Your task to perform on an android device: Search for macbook on costco.com, select the first entry, add it to the cart, then select checkout. Image 0: 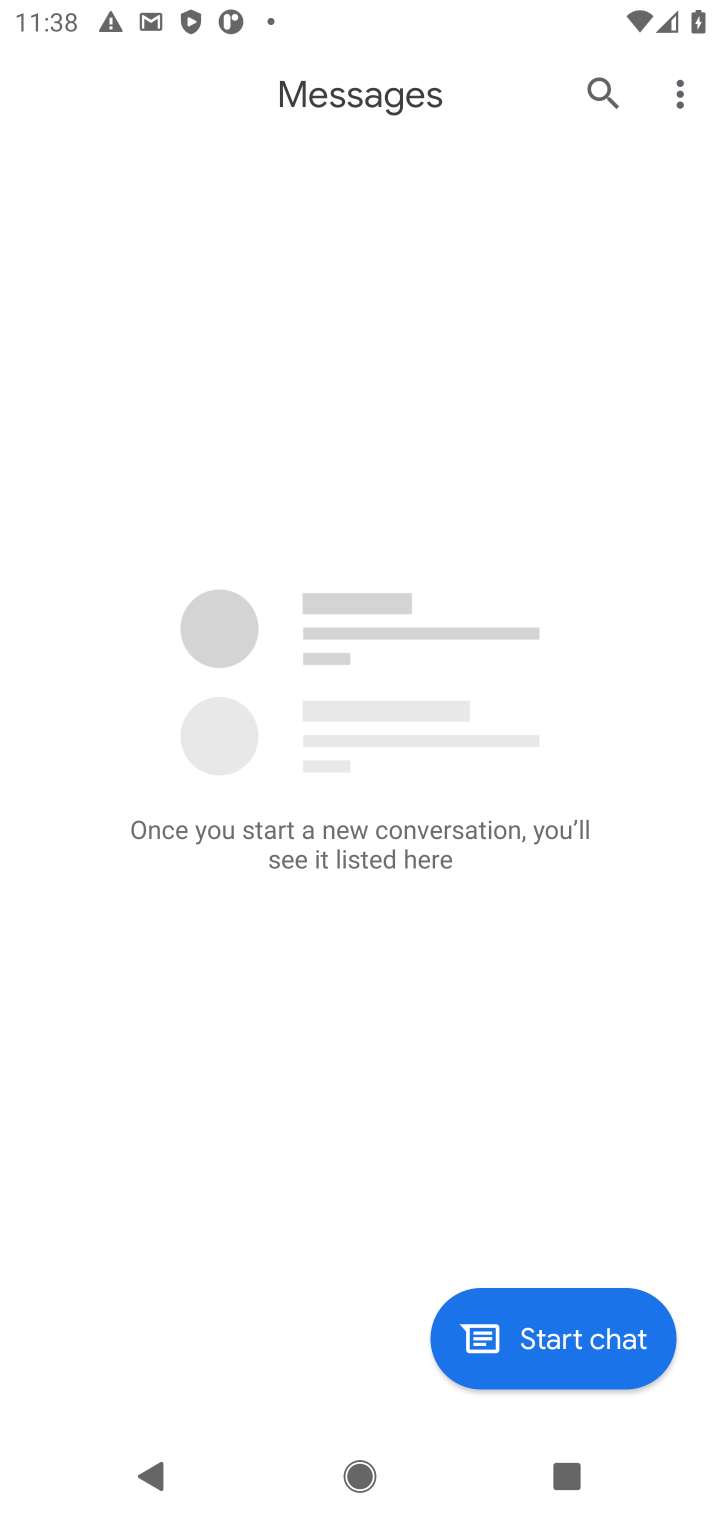
Step 0: press home button
Your task to perform on an android device: Search for macbook on costco.com, select the first entry, add it to the cart, then select checkout. Image 1: 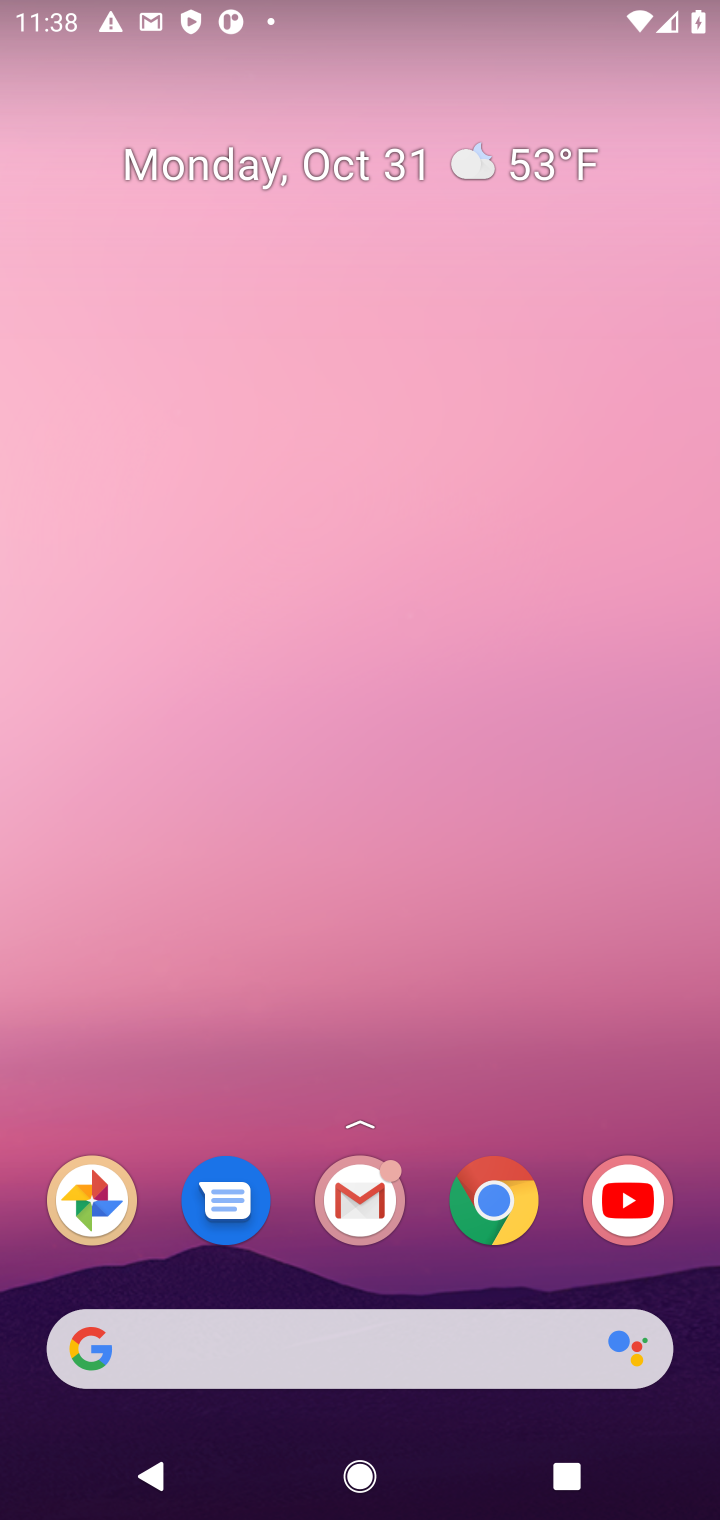
Step 1: click (494, 1216)
Your task to perform on an android device: Search for macbook on costco.com, select the first entry, add it to the cart, then select checkout. Image 2: 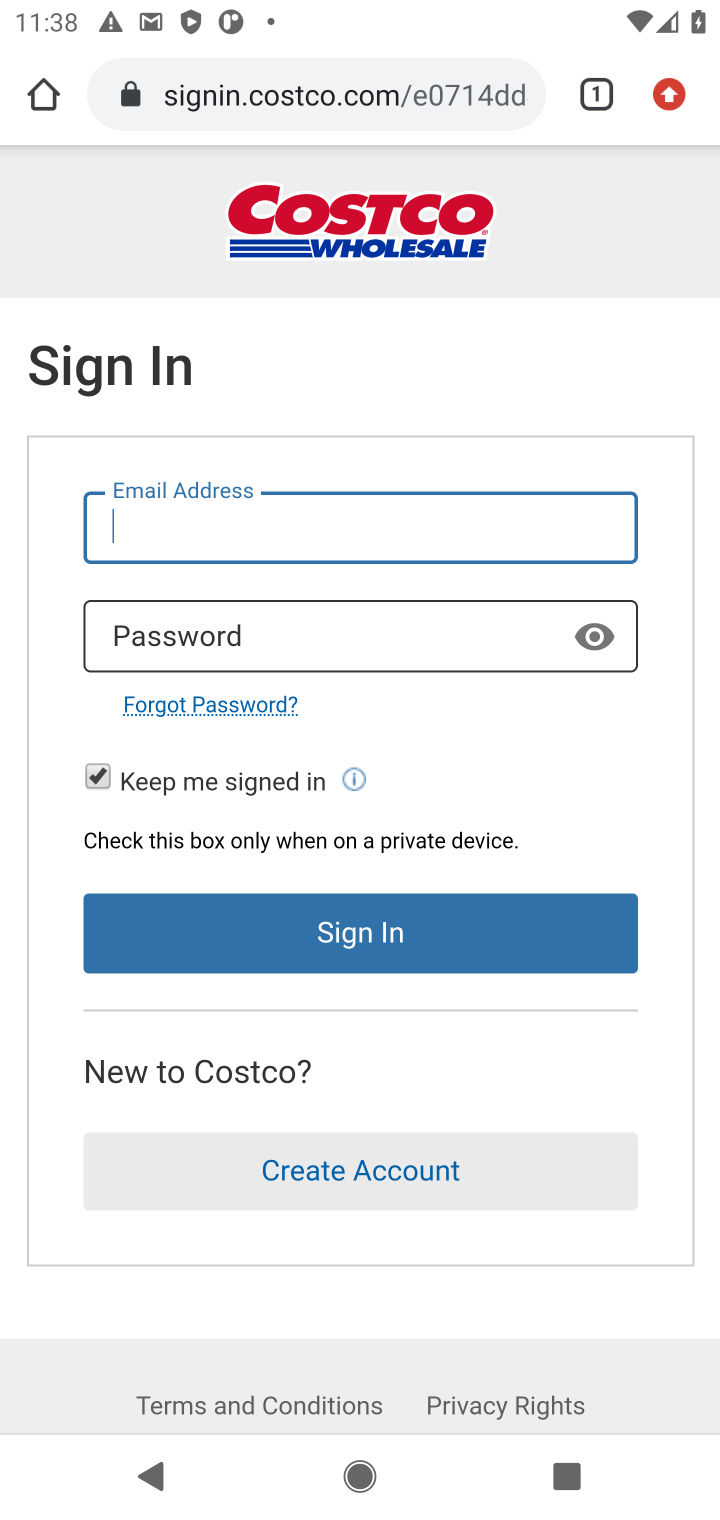
Step 2: click (345, 91)
Your task to perform on an android device: Search for macbook on costco.com, select the first entry, add it to the cart, then select checkout. Image 3: 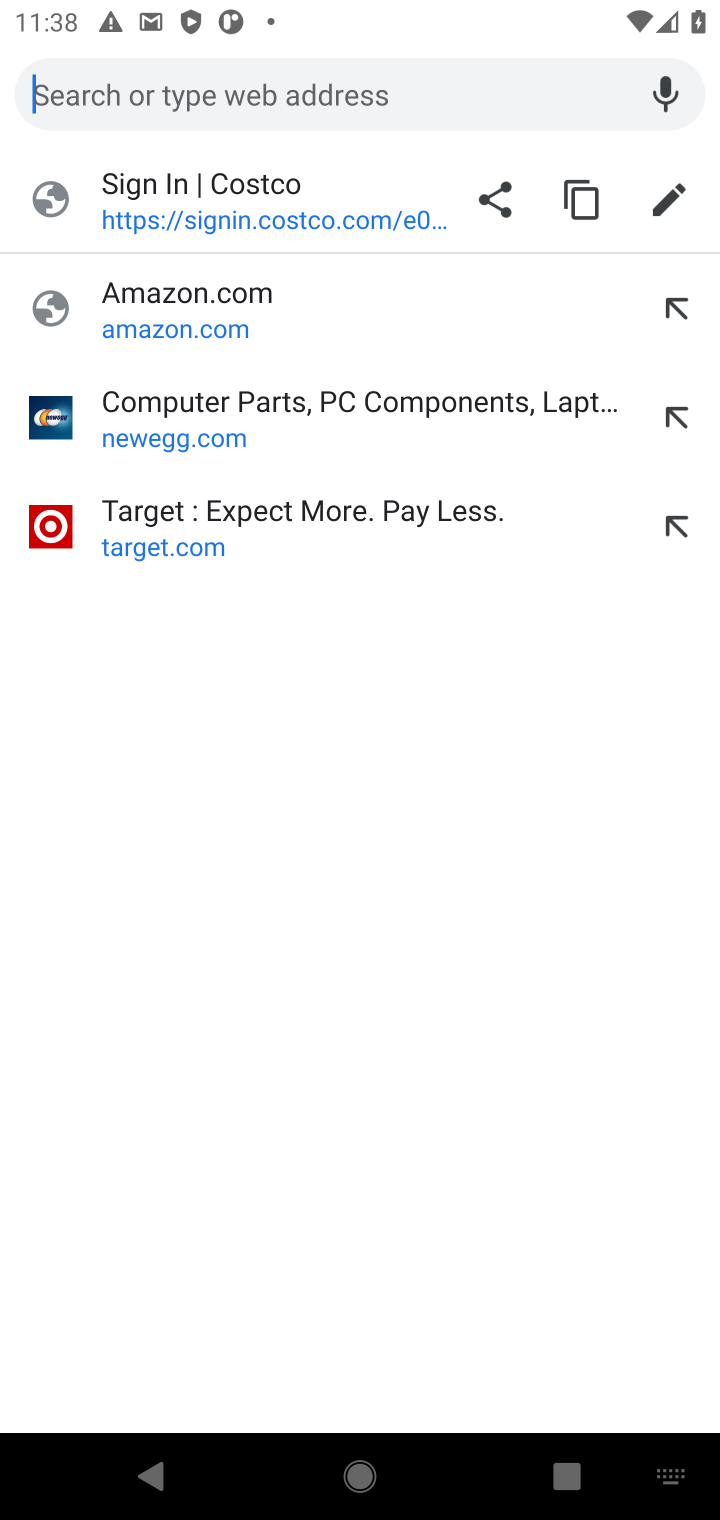
Step 3: type "costco.com"
Your task to perform on an android device: Search for macbook on costco.com, select the first entry, add it to the cart, then select checkout. Image 4: 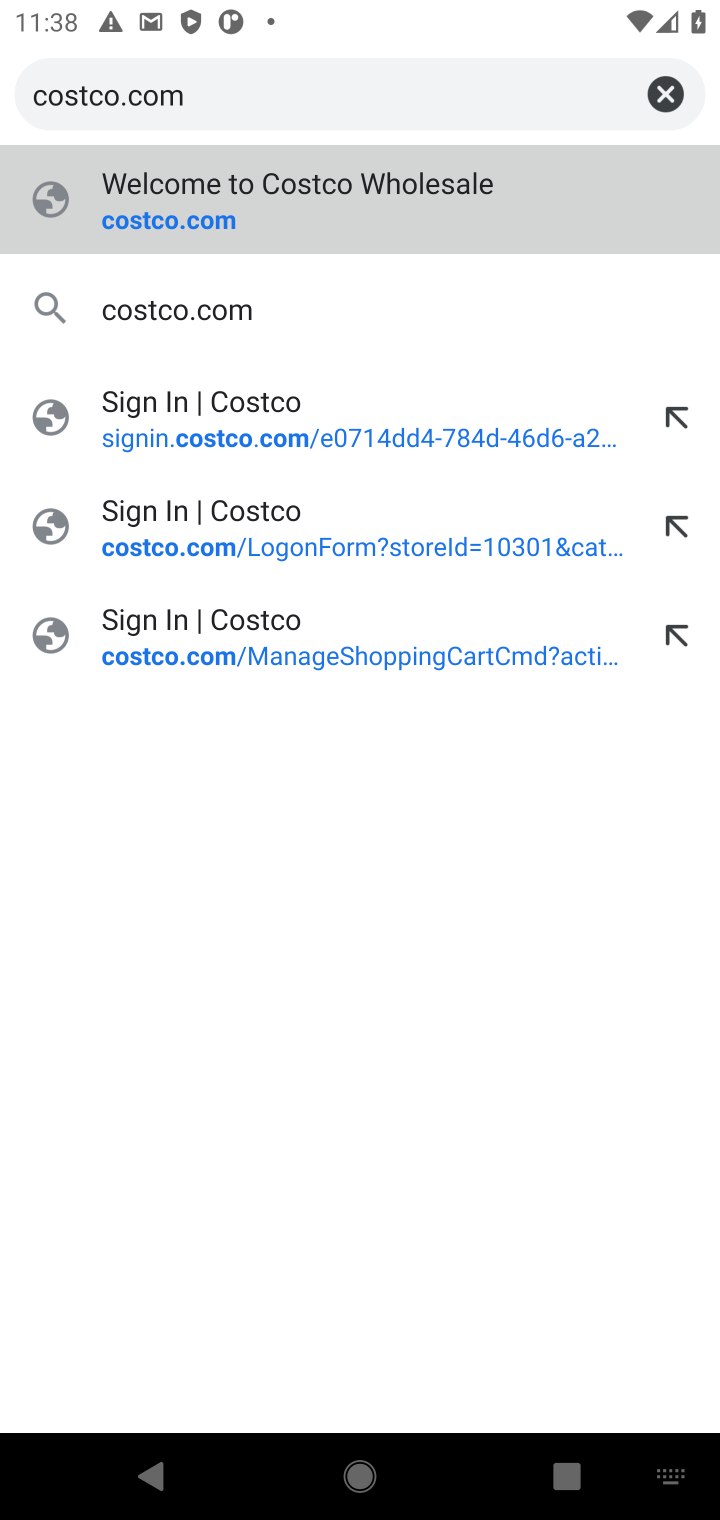
Step 4: type ""
Your task to perform on an android device: Search for macbook on costco.com, select the first entry, add it to the cart, then select checkout. Image 5: 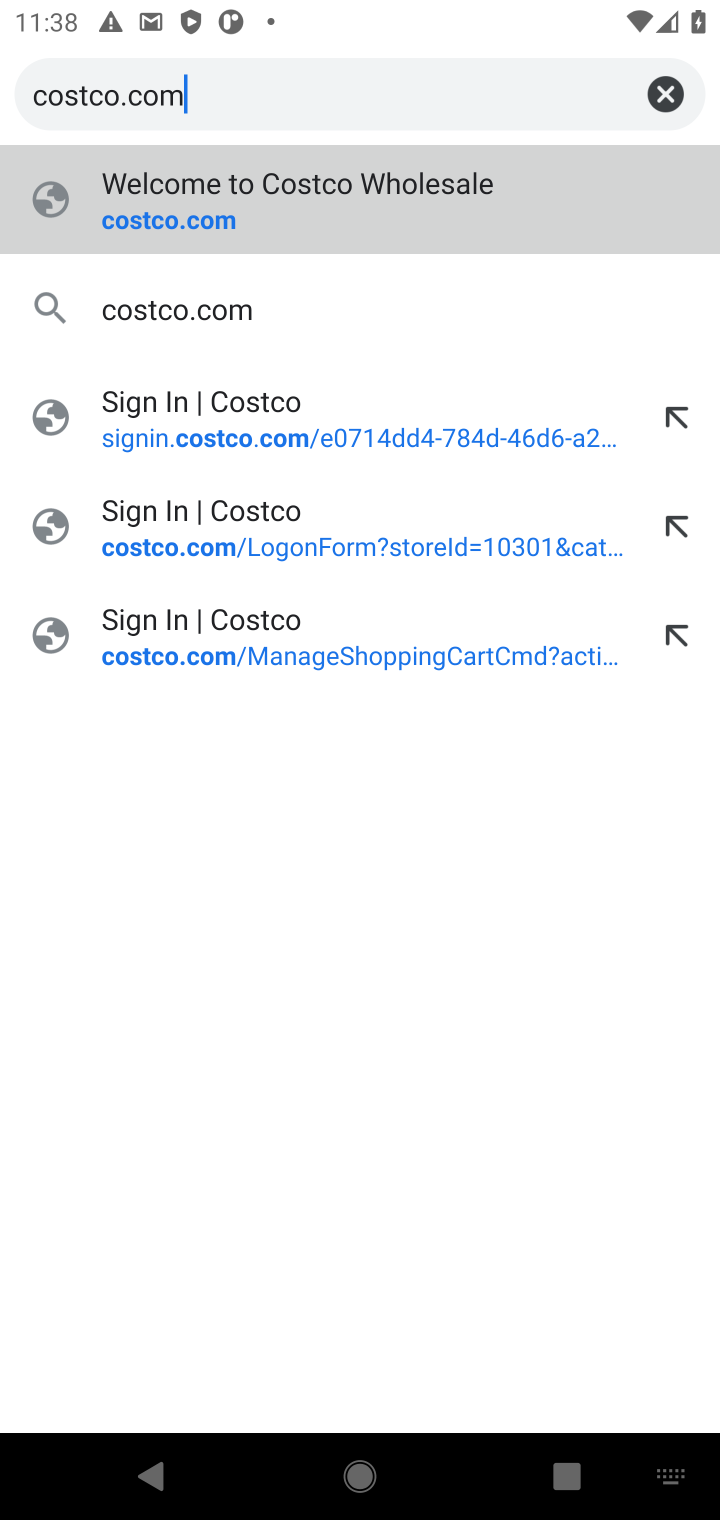
Step 5: click (414, 184)
Your task to perform on an android device: Search for macbook on costco.com, select the first entry, add it to the cart, then select checkout. Image 6: 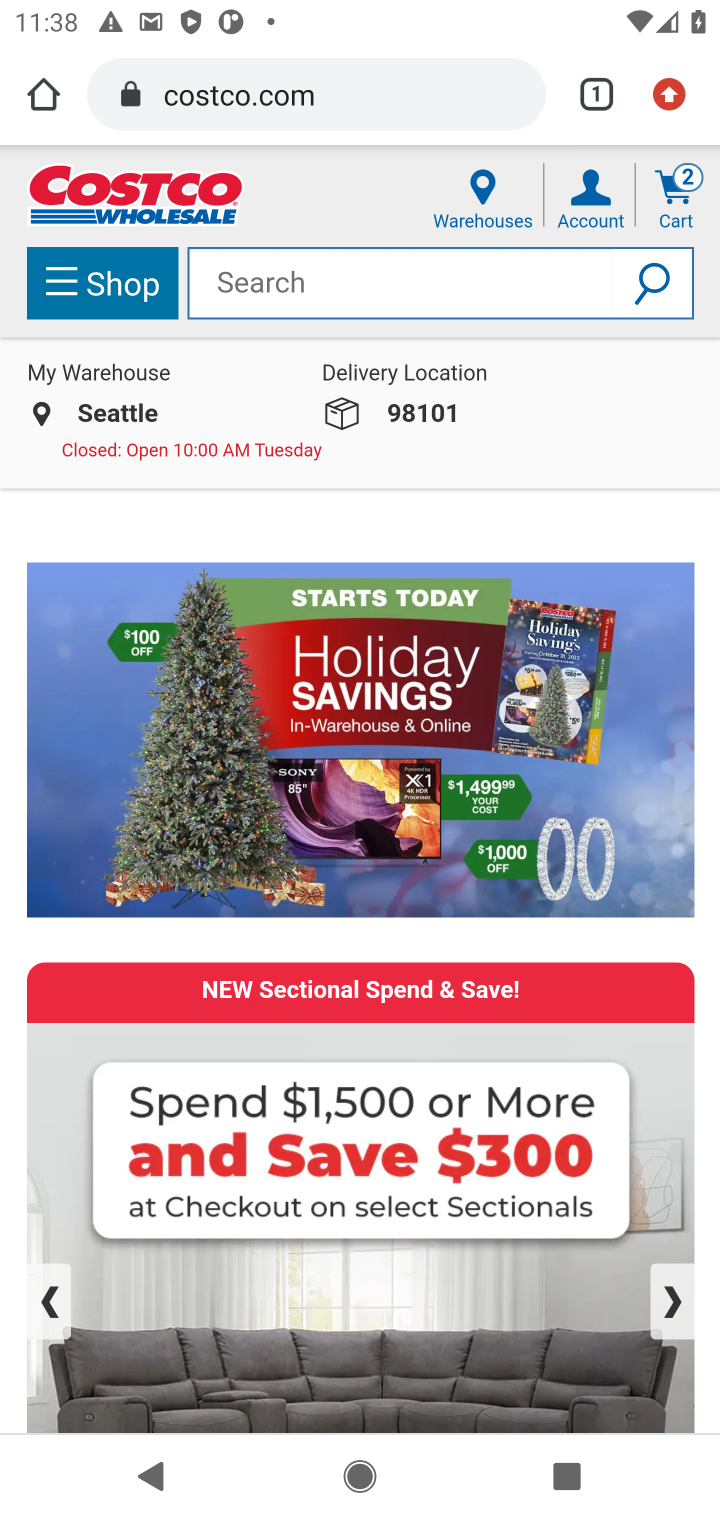
Step 6: click (381, 305)
Your task to perform on an android device: Search for macbook on costco.com, select the first entry, add it to the cart, then select checkout. Image 7: 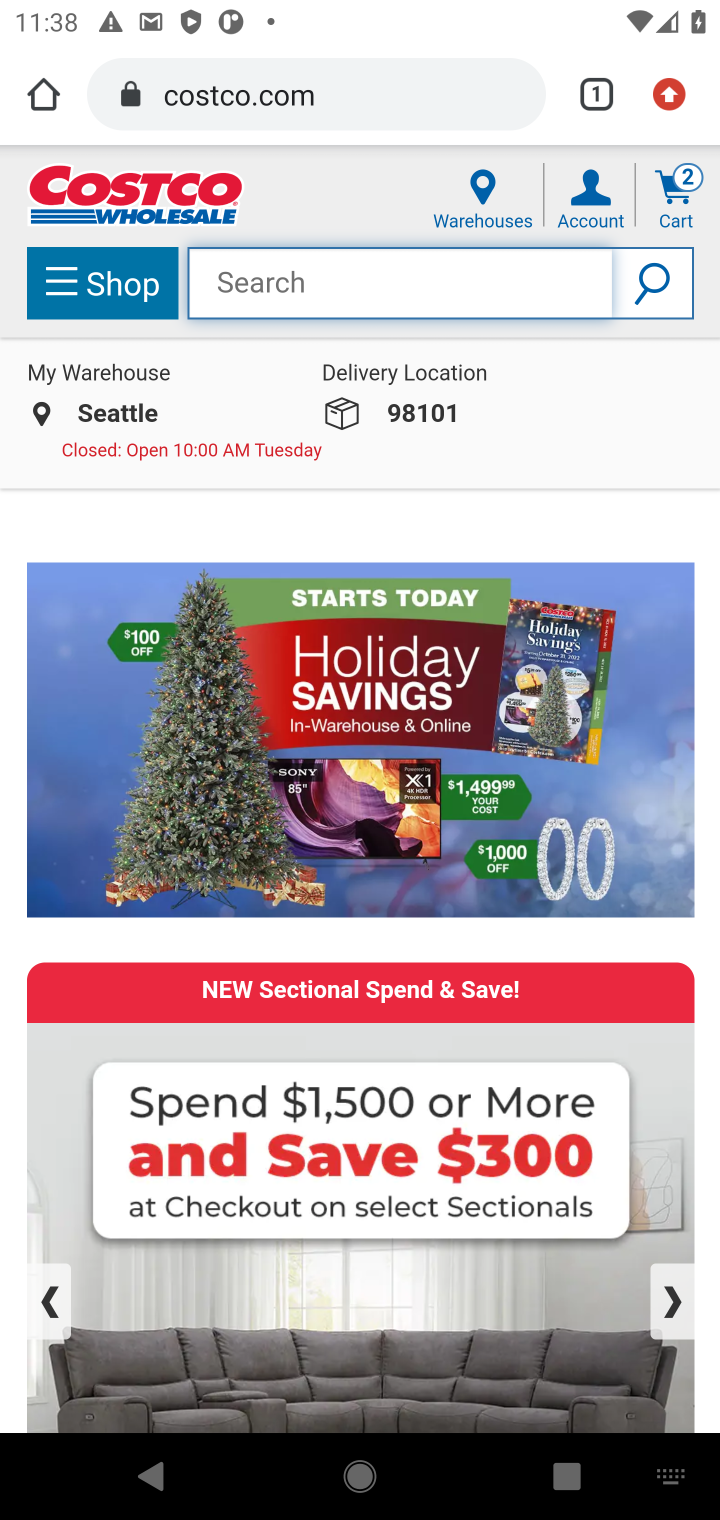
Step 7: type "macbook"
Your task to perform on an android device: Search for macbook on costco.com, select the first entry, add it to the cart, then select checkout. Image 8: 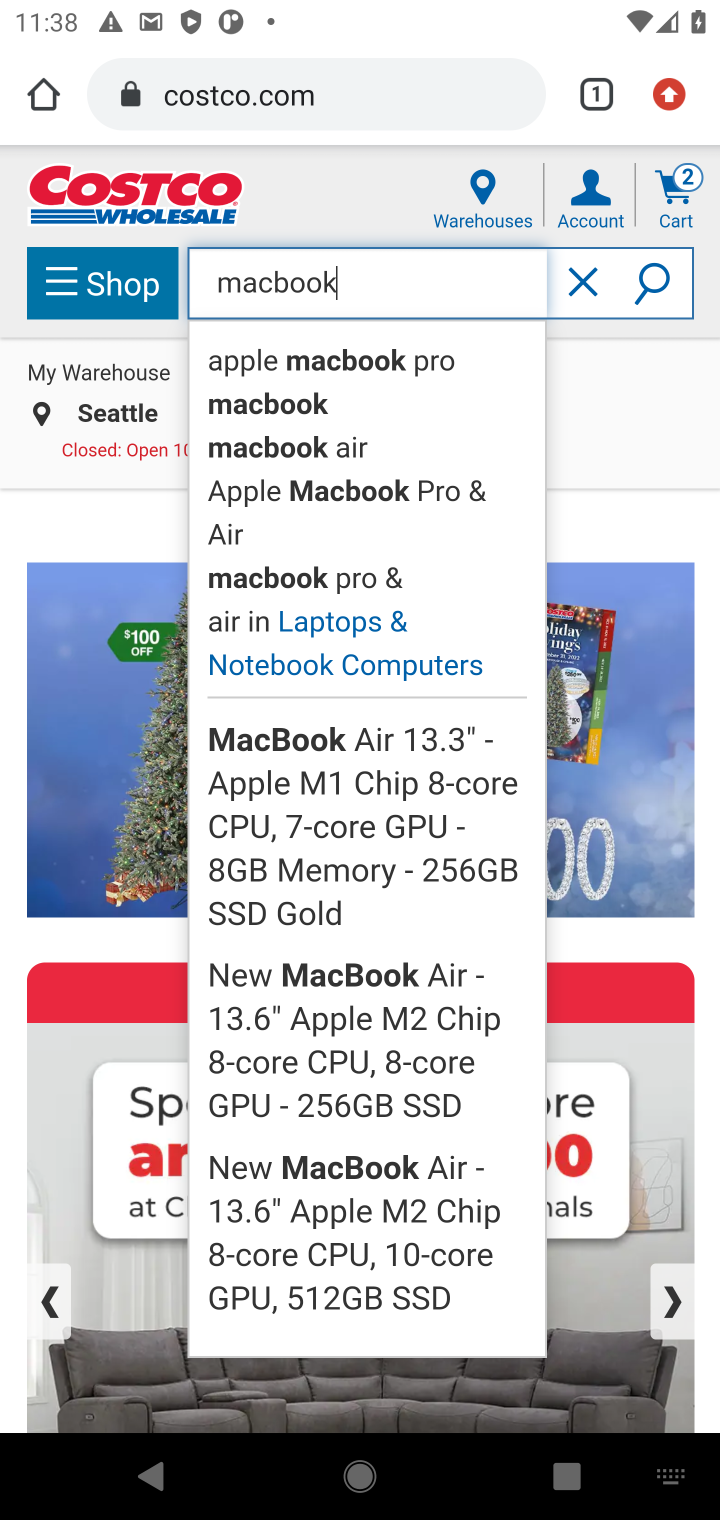
Step 8: press enter
Your task to perform on an android device: Search for macbook on costco.com, select the first entry, add it to the cart, then select checkout. Image 9: 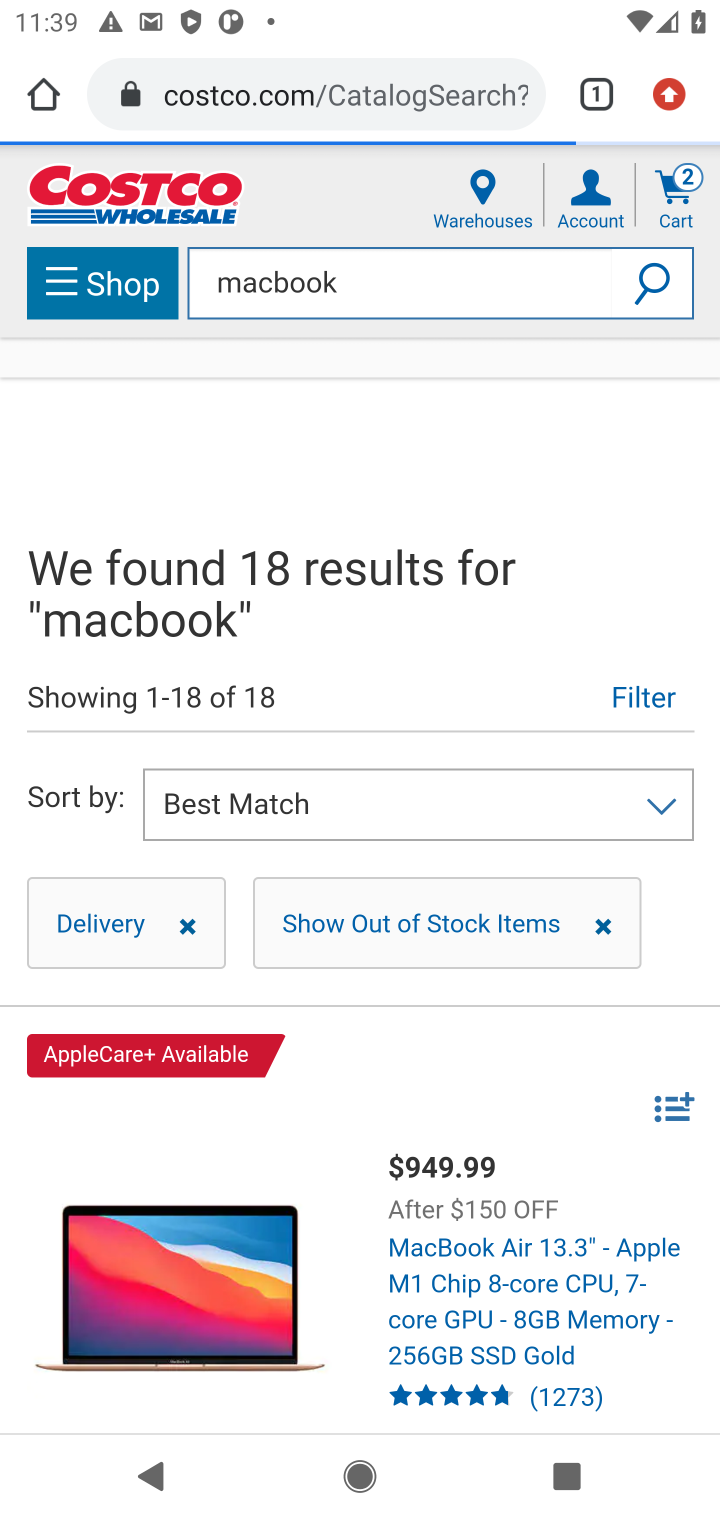
Step 9: click (544, 1257)
Your task to perform on an android device: Search for macbook on costco.com, select the first entry, add it to the cart, then select checkout. Image 10: 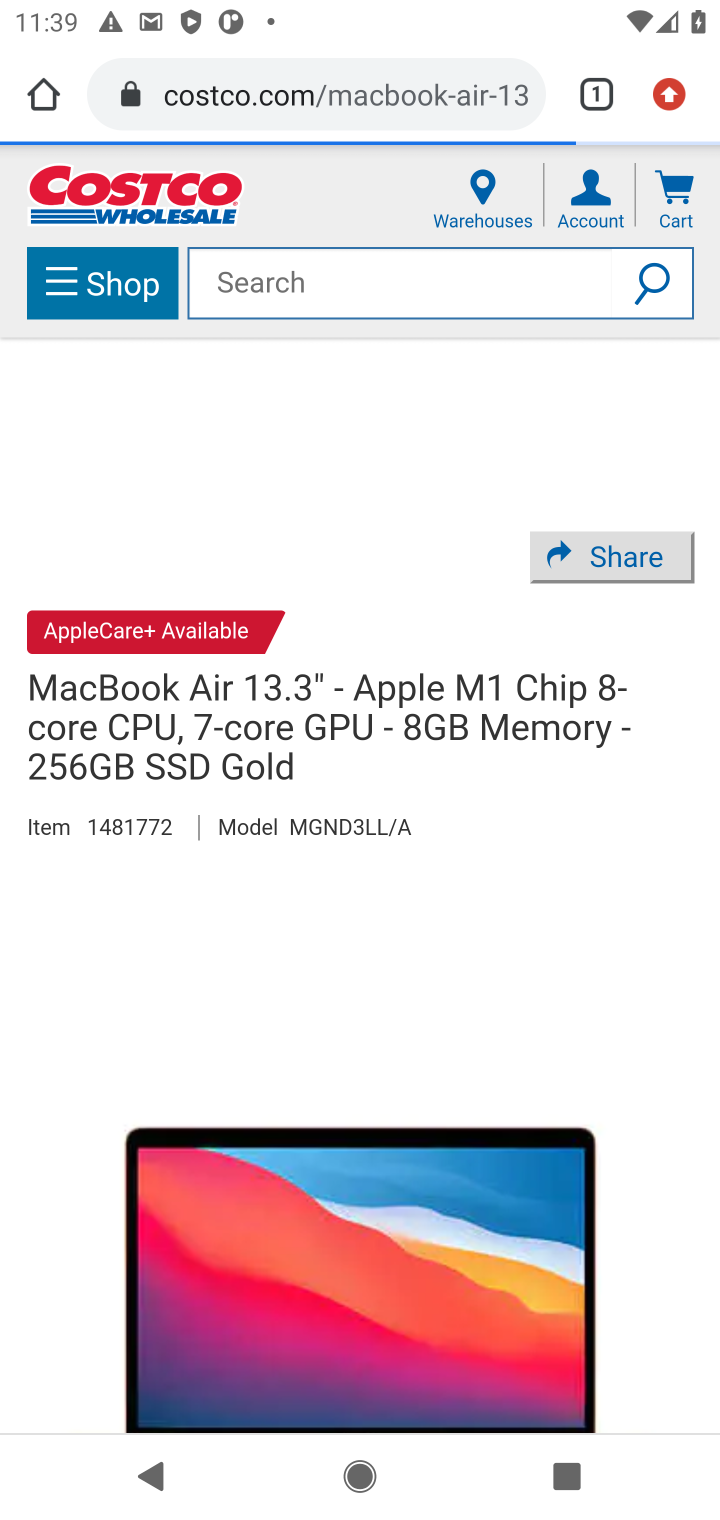
Step 10: drag from (548, 1282) to (549, 447)
Your task to perform on an android device: Search for macbook on costco.com, select the first entry, add it to the cart, then select checkout. Image 11: 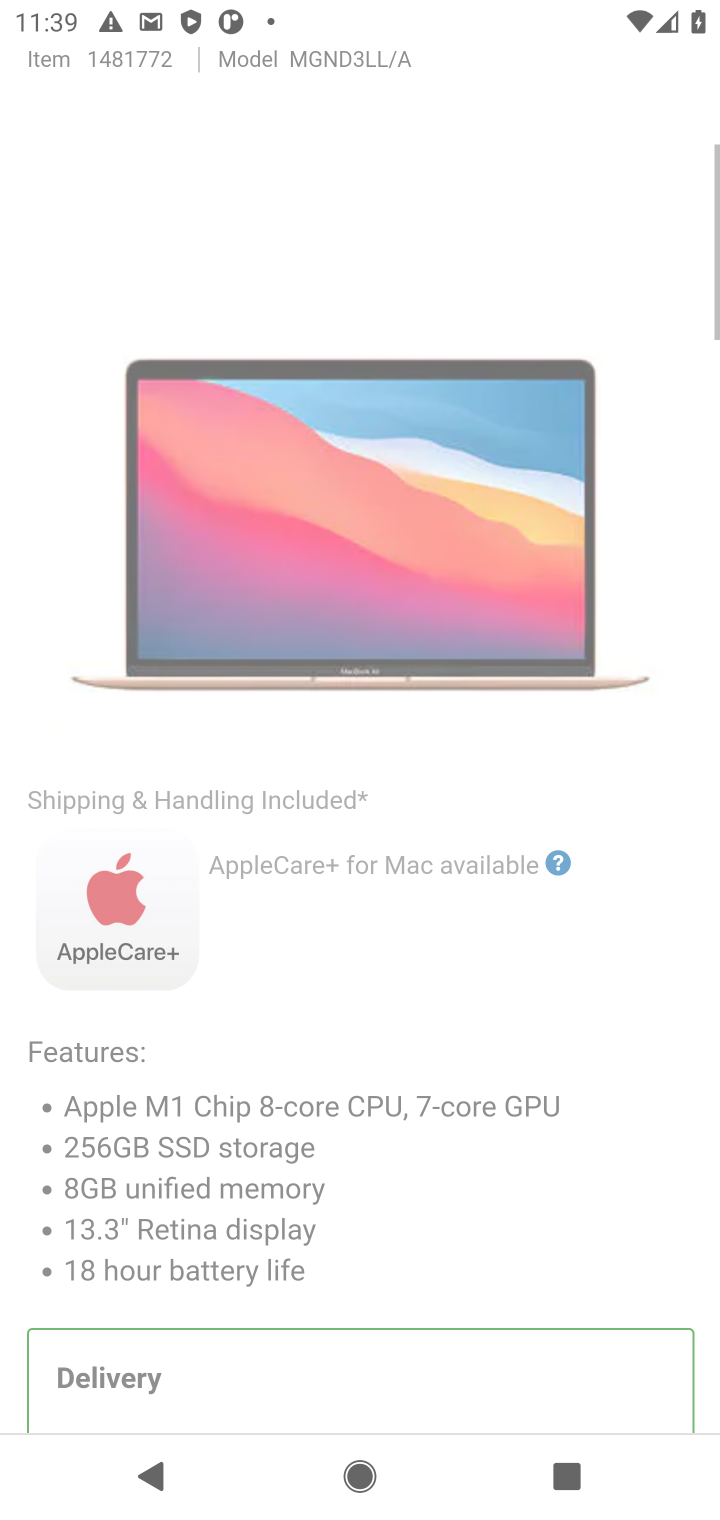
Step 11: drag from (508, 966) to (515, 476)
Your task to perform on an android device: Search for macbook on costco.com, select the first entry, add it to the cart, then select checkout. Image 12: 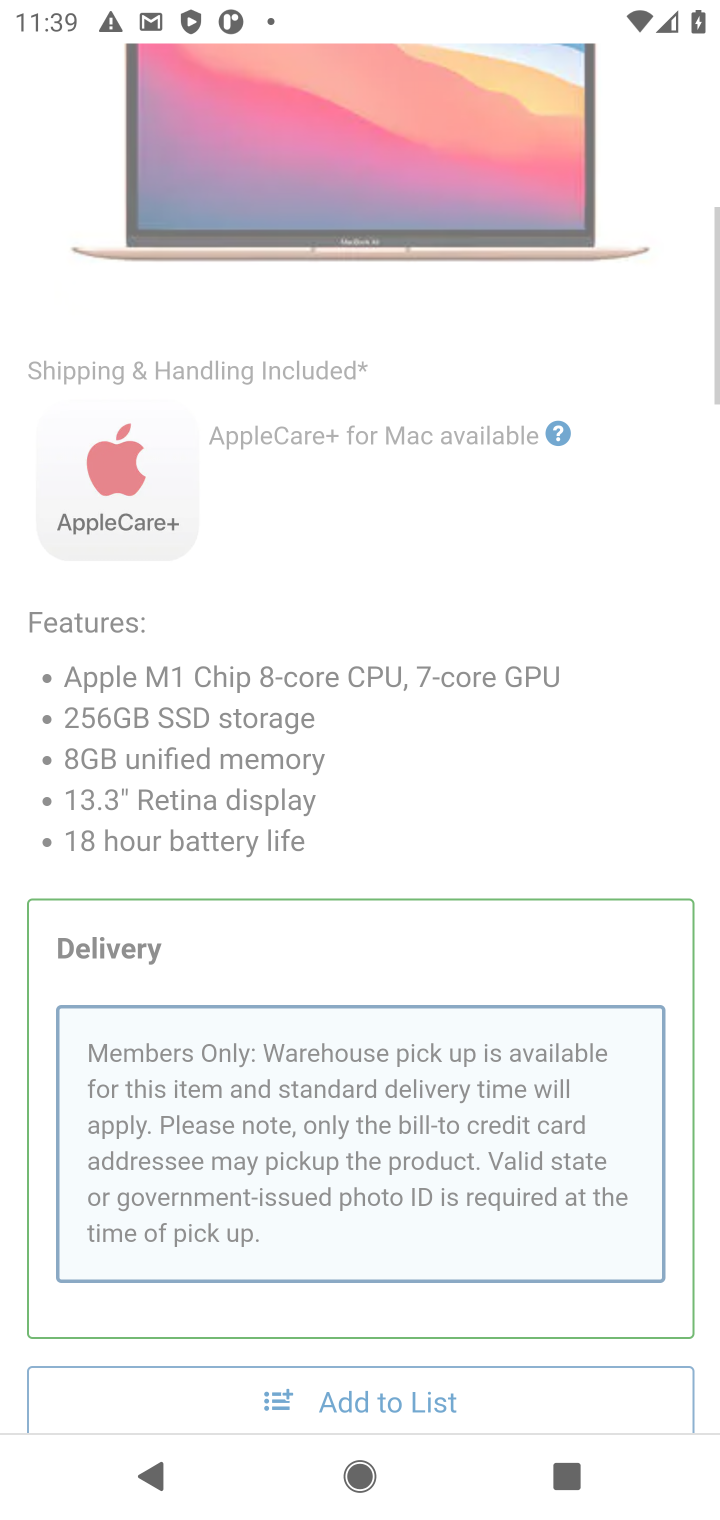
Step 12: drag from (485, 985) to (554, 500)
Your task to perform on an android device: Search for macbook on costco.com, select the first entry, add it to the cart, then select checkout. Image 13: 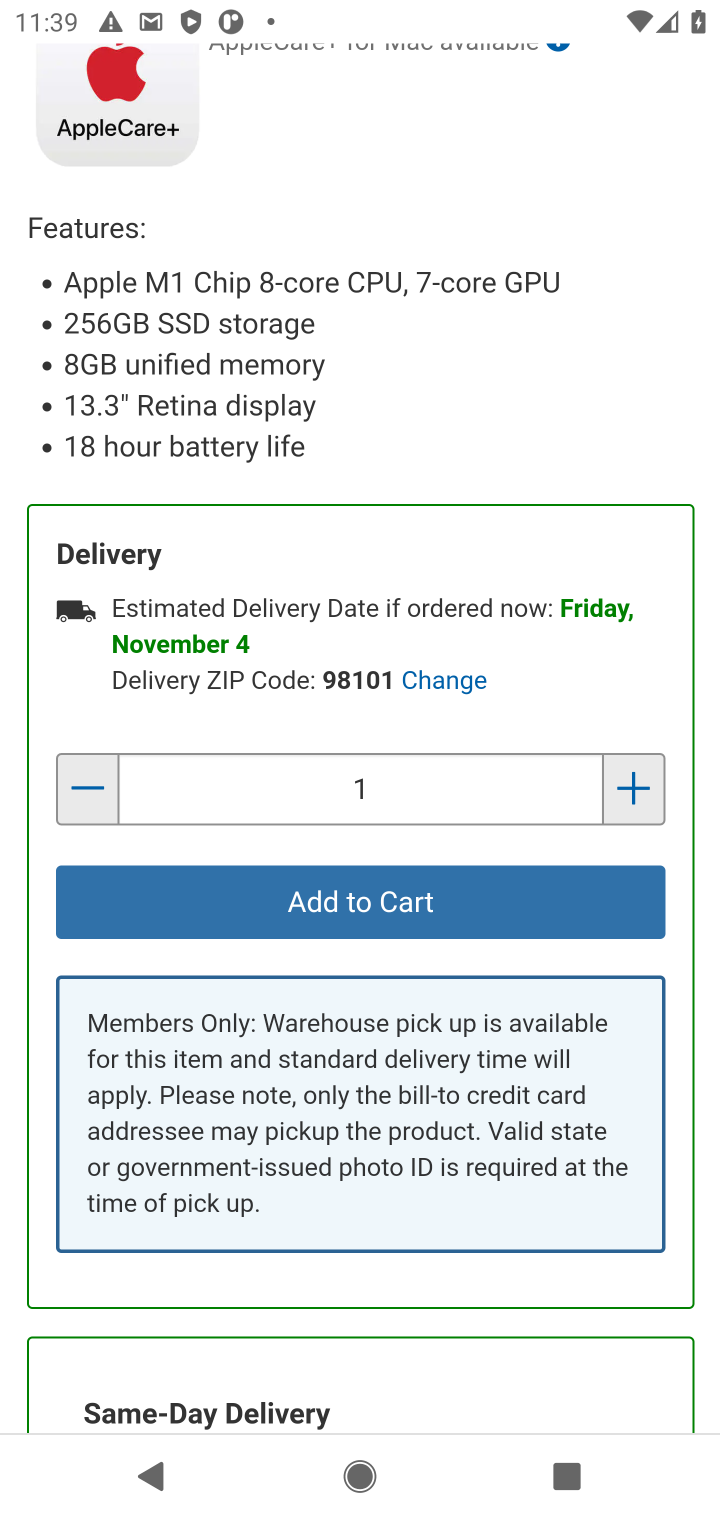
Step 13: click (501, 914)
Your task to perform on an android device: Search for macbook on costco.com, select the first entry, add it to the cart, then select checkout. Image 14: 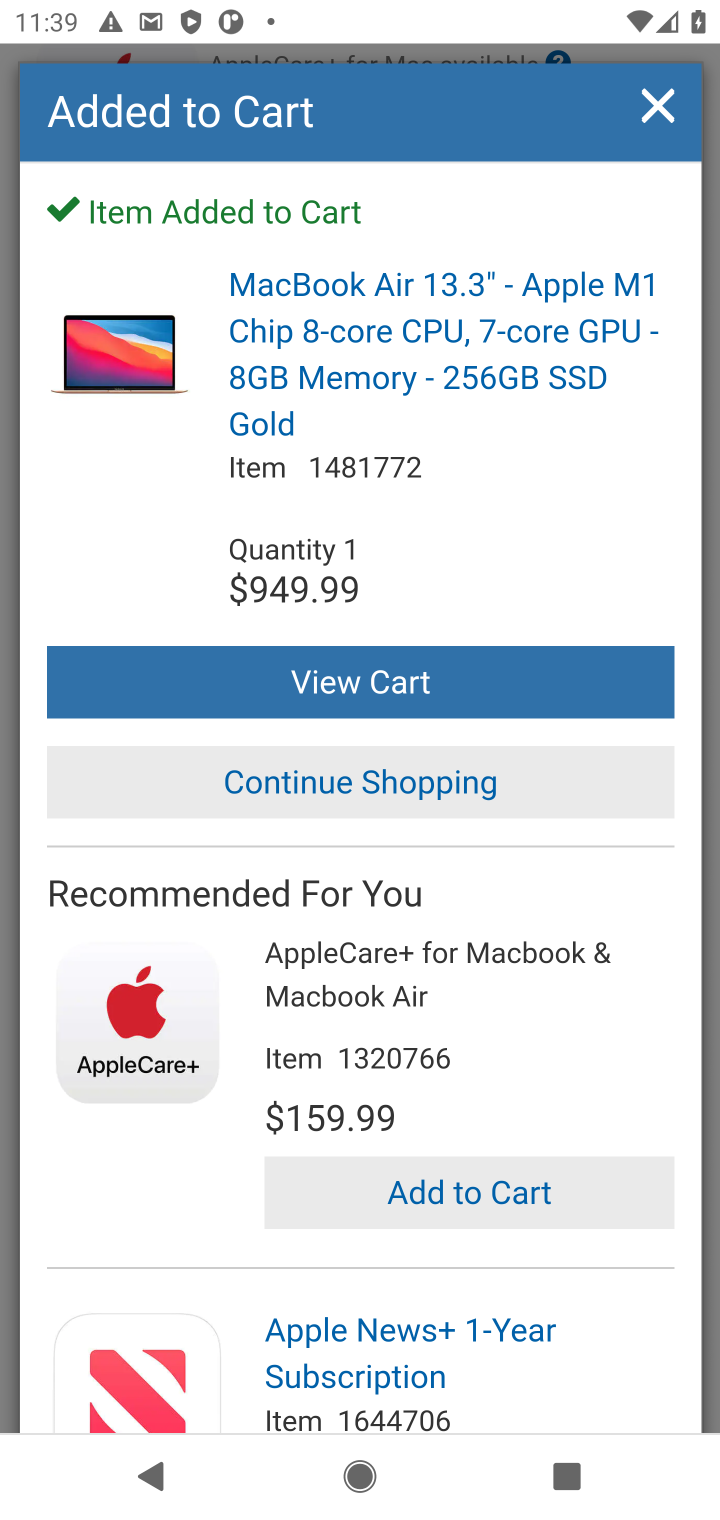
Step 14: click (518, 781)
Your task to perform on an android device: Search for macbook on costco.com, select the first entry, add it to the cart, then select checkout. Image 15: 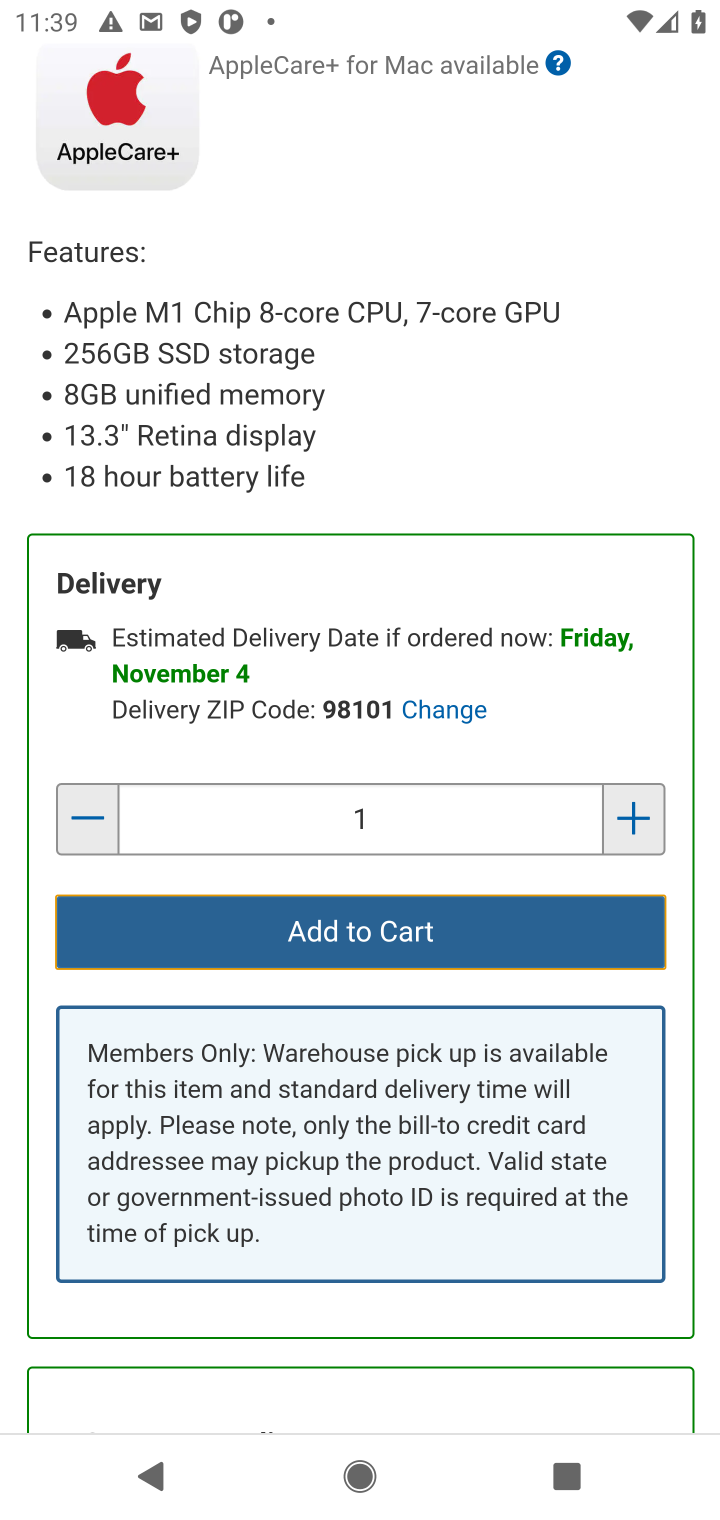
Step 15: click (501, 907)
Your task to perform on an android device: Search for macbook on costco.com, select the first entry, add it to the cart, then select checkout. Image 16: 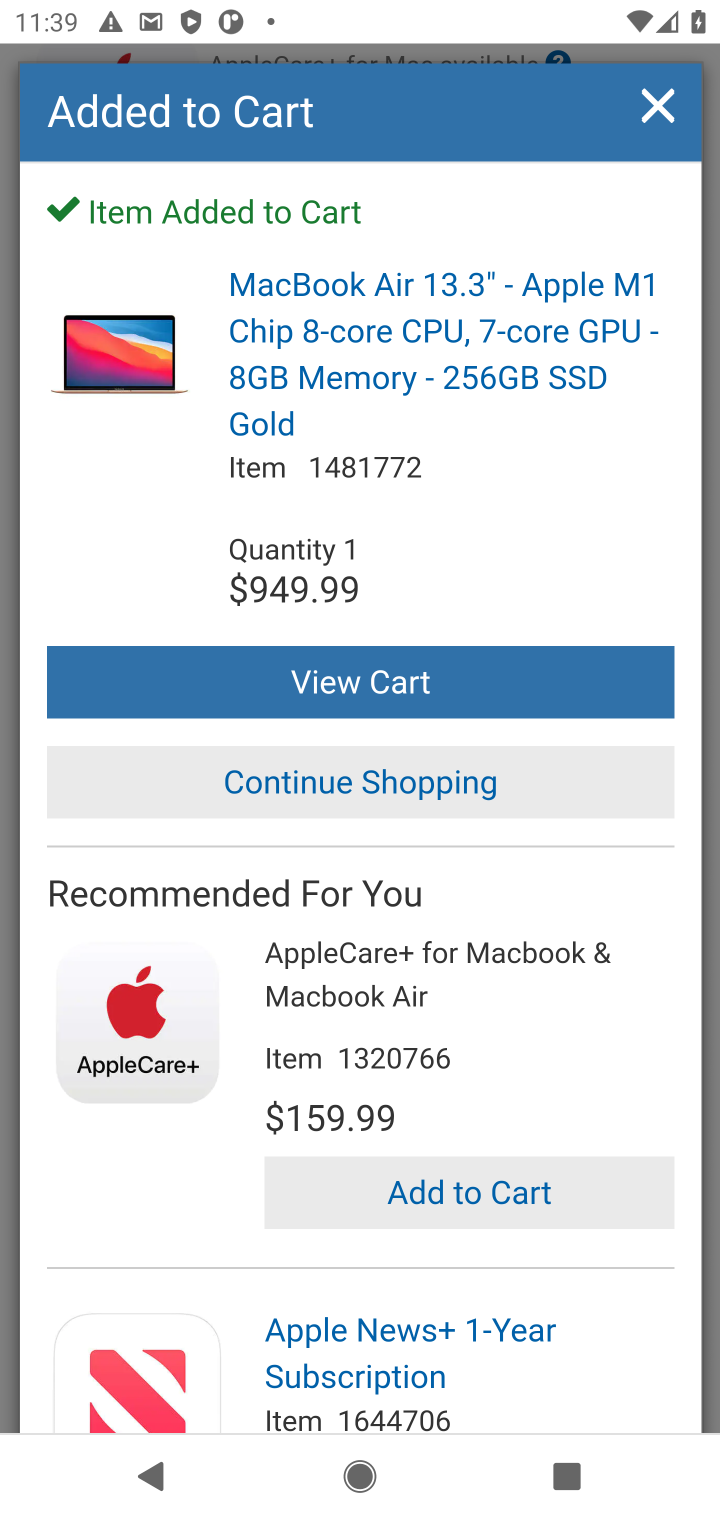
Step 16: click (432, 681)
Your task to perform on an android device: Search for macbook on costco.com, select the first entry, add it to the cart, then select checkout. Image 17: 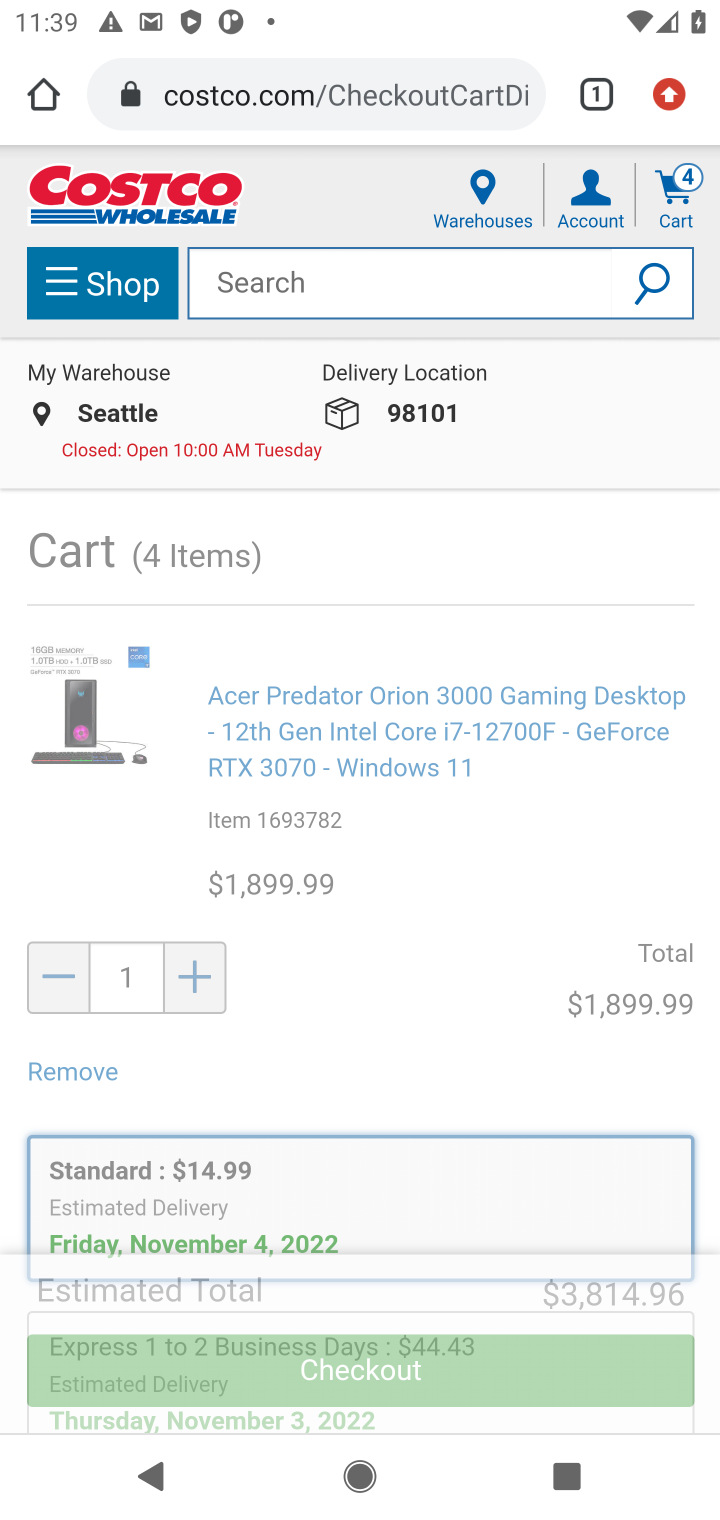
Step 17: click (432, 681)
Your task to perform on an android device: Search for macbook on costco.com, select the first entry, add it to the cart, then select checkout. Image 18: 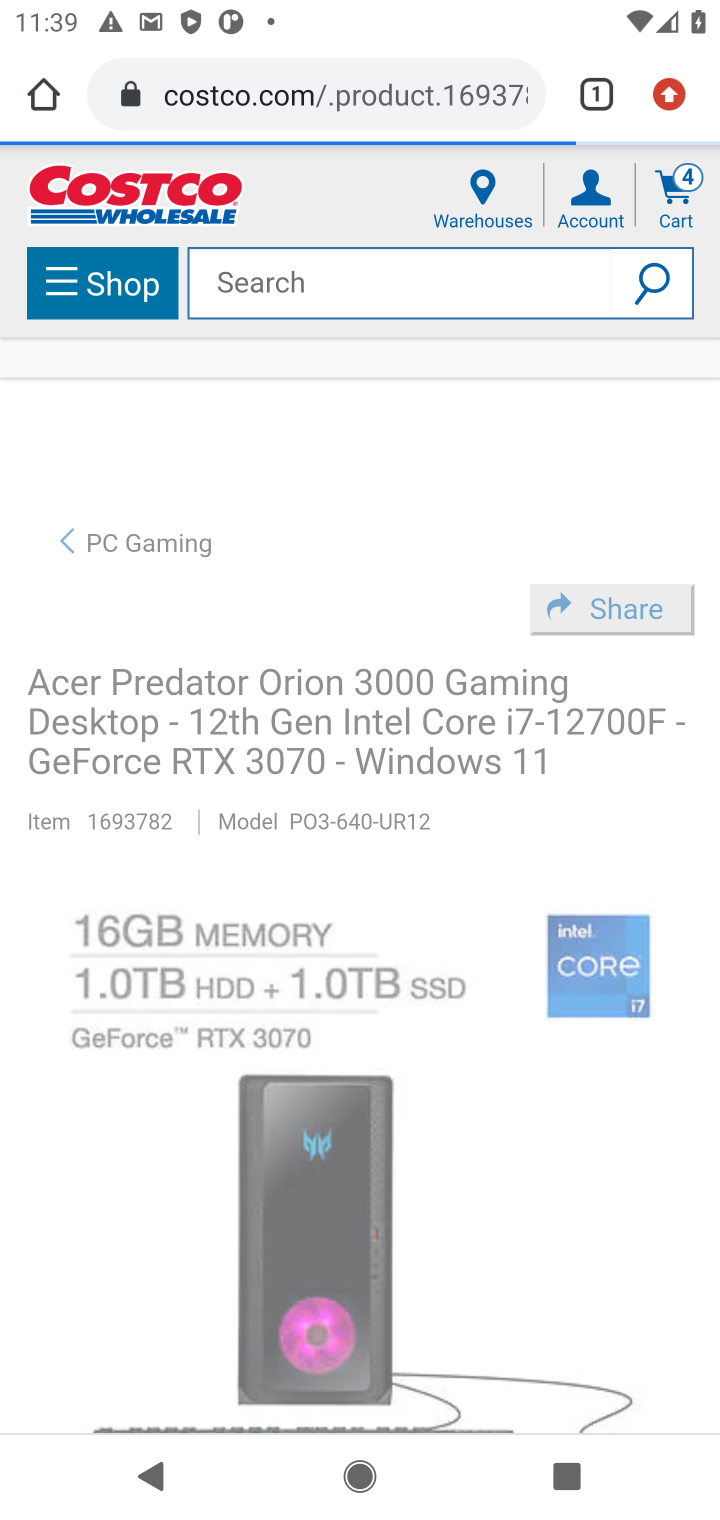
Step 18: drag from (421, 1093) to (425, 522)
Your task to perform on an android device: Search for macbook on costco.com, select the first entry, add it to the cart, then select checkout. Image 19: 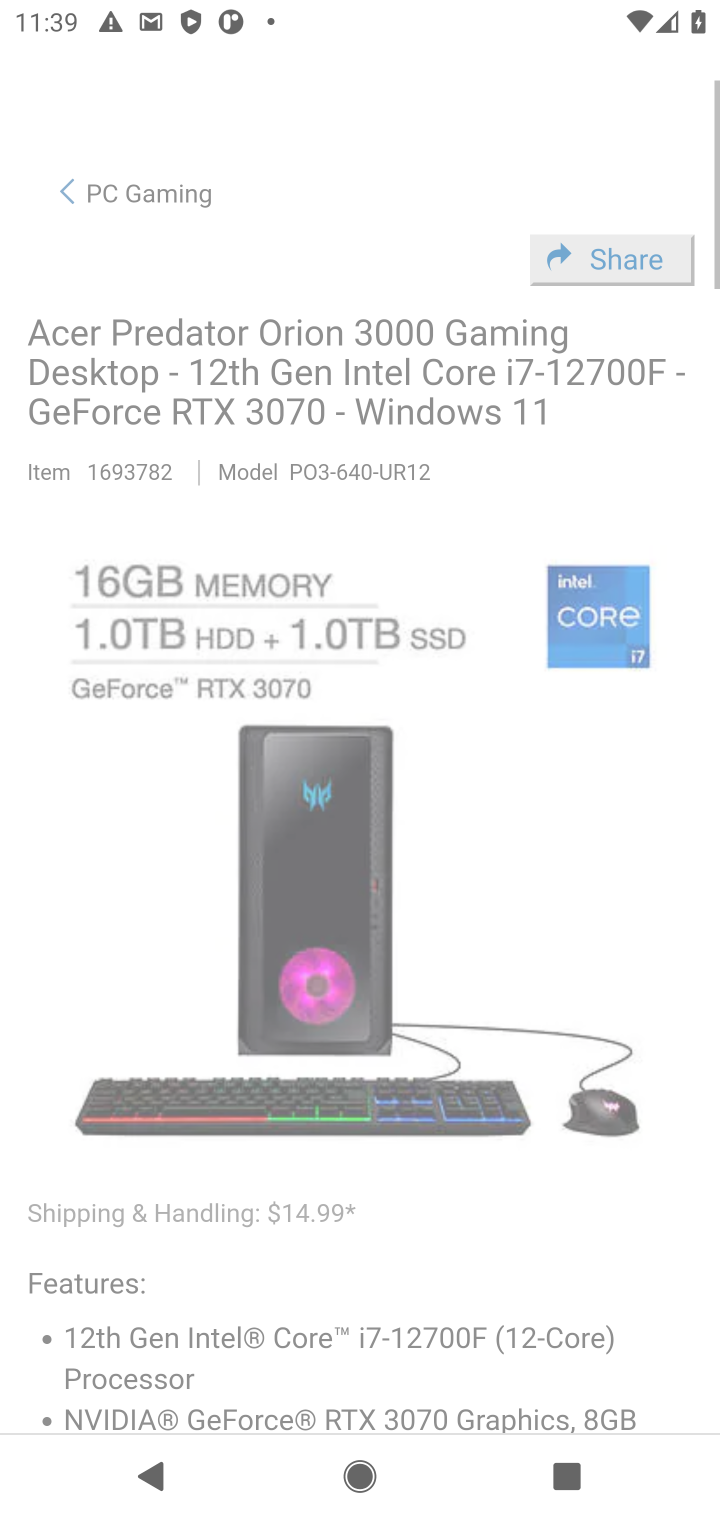
Step 19: drag from (401, 1150) to (417, 568)
Your task to perform on an android device: Search for macbook on costco.com, select the first entry, add it to the cart, then select checkout. Image 20: 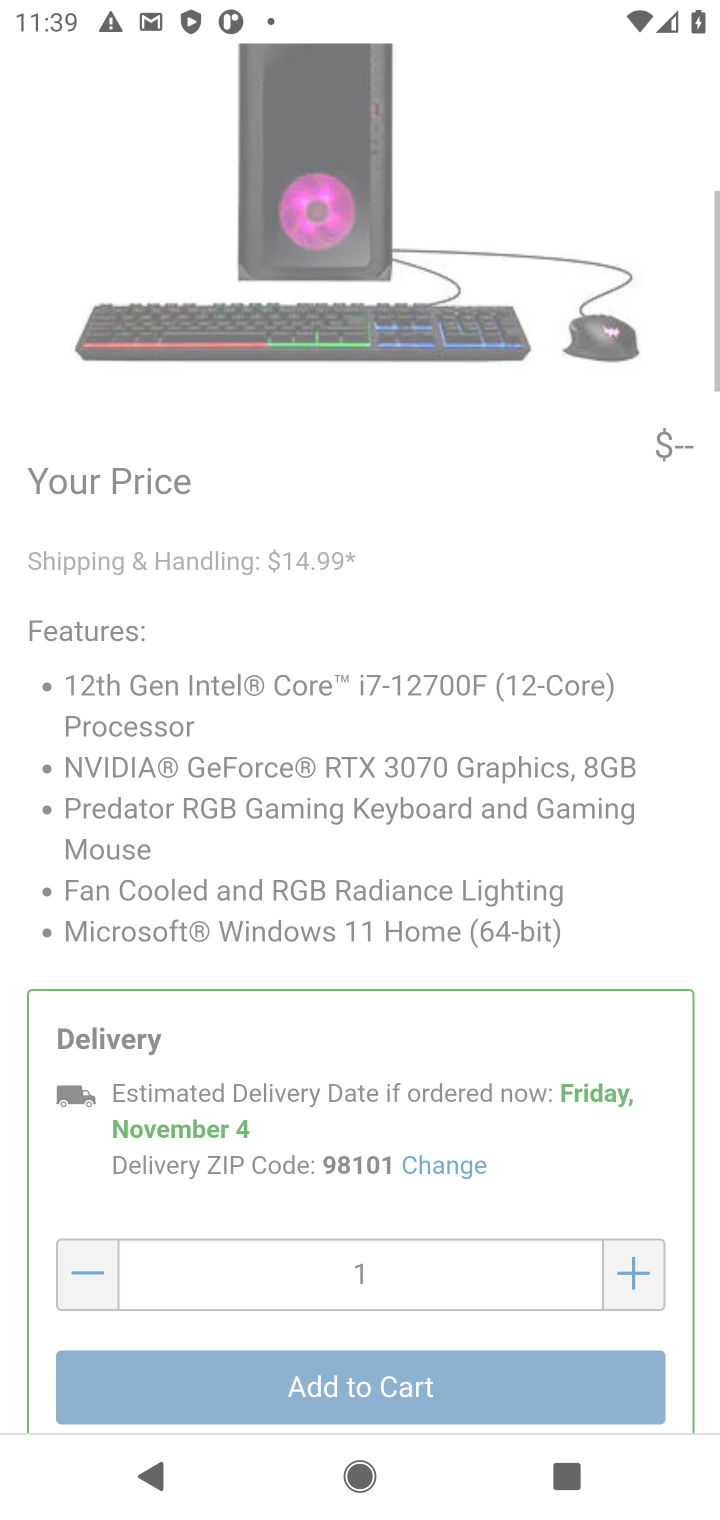
Step 20: click (468, 473)
Your task to perform on an android device: Search for macbook on costco.com, select the first entry, add it to the cart, then select checkout. Image 21: 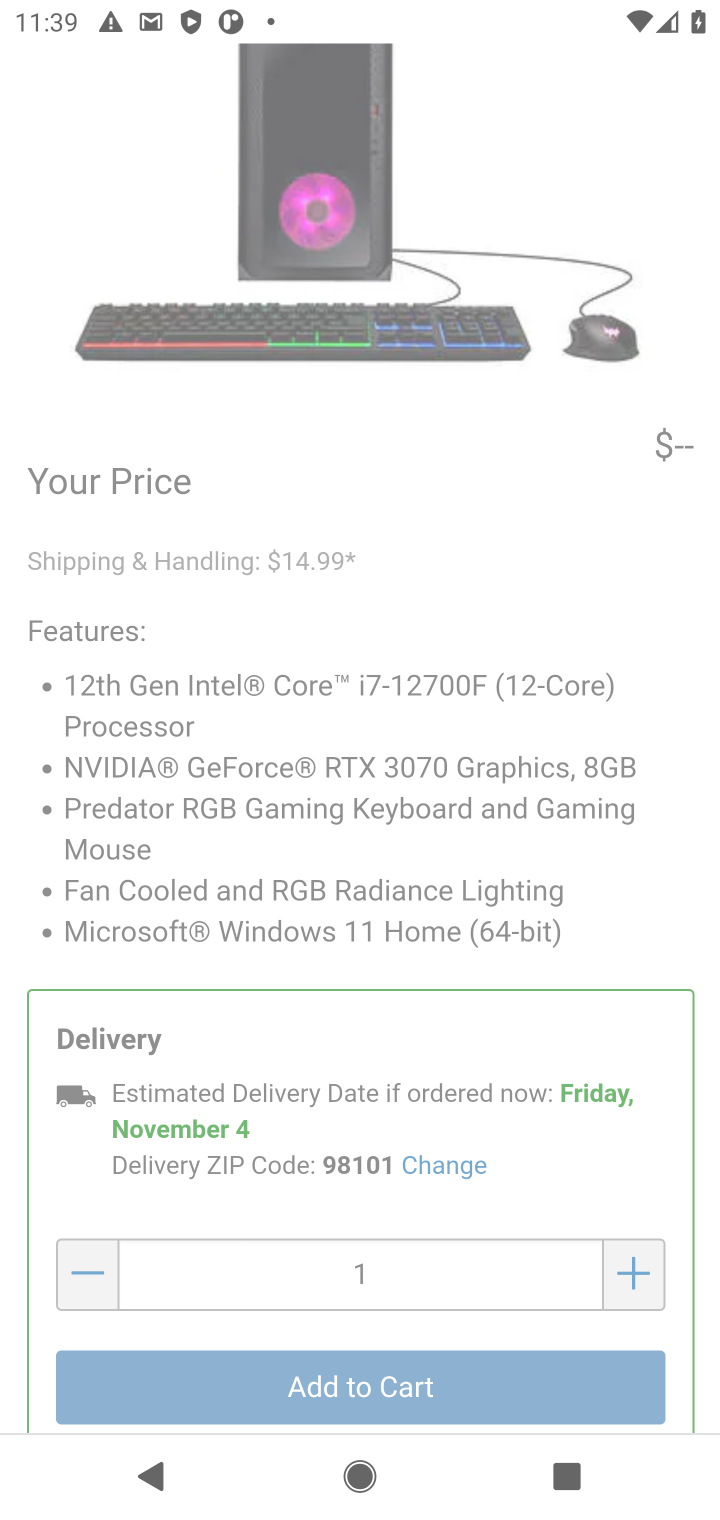
Step 21: drag from (481, 950) to (464, 379)
Your task to perform on an android device: Search for macbook on costco.com, select the first entry, add it to the cart, then select checkout. Image 22: 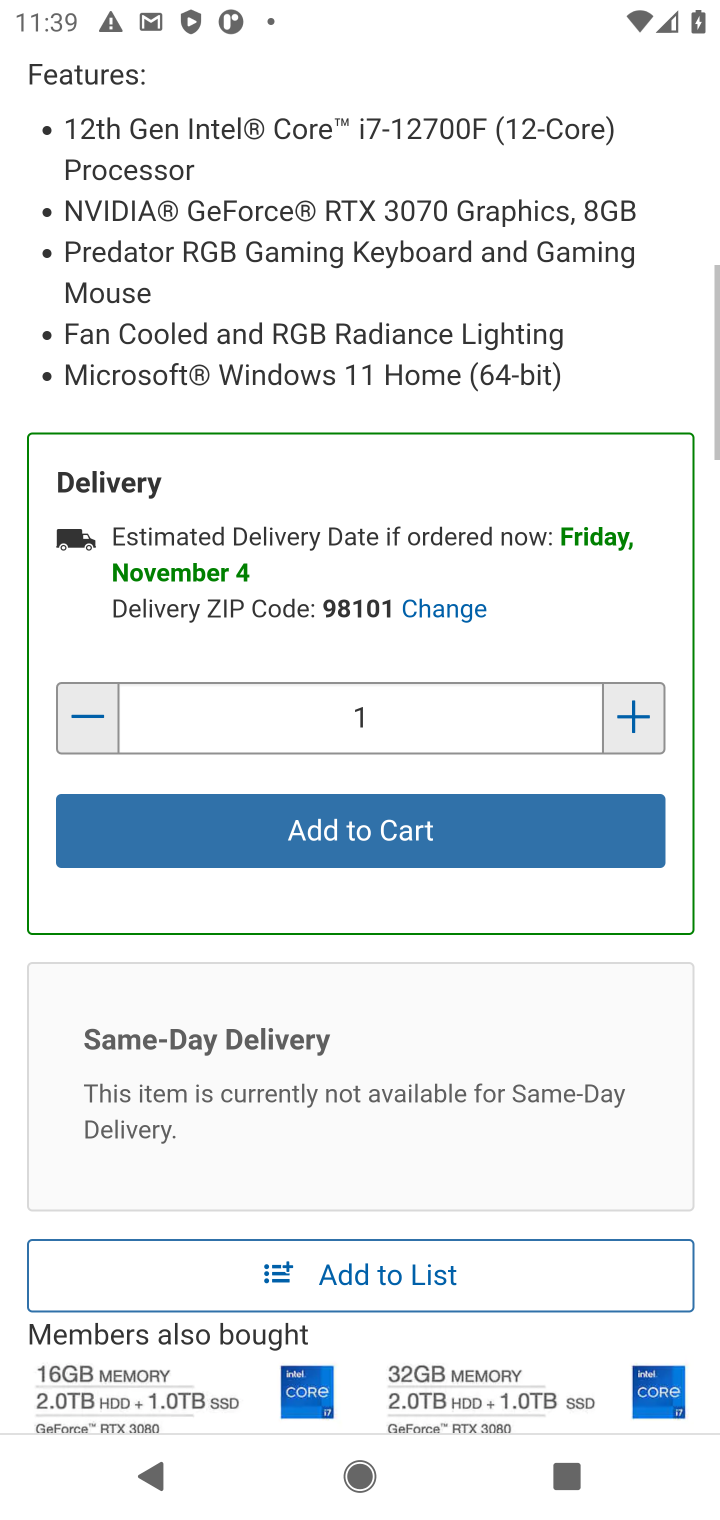
Step 22: click (546, 565)
Your task to perform on an android device: Search for macbook on costco.com, select the first entry, add it to the cart, then select checkout. Image 23: 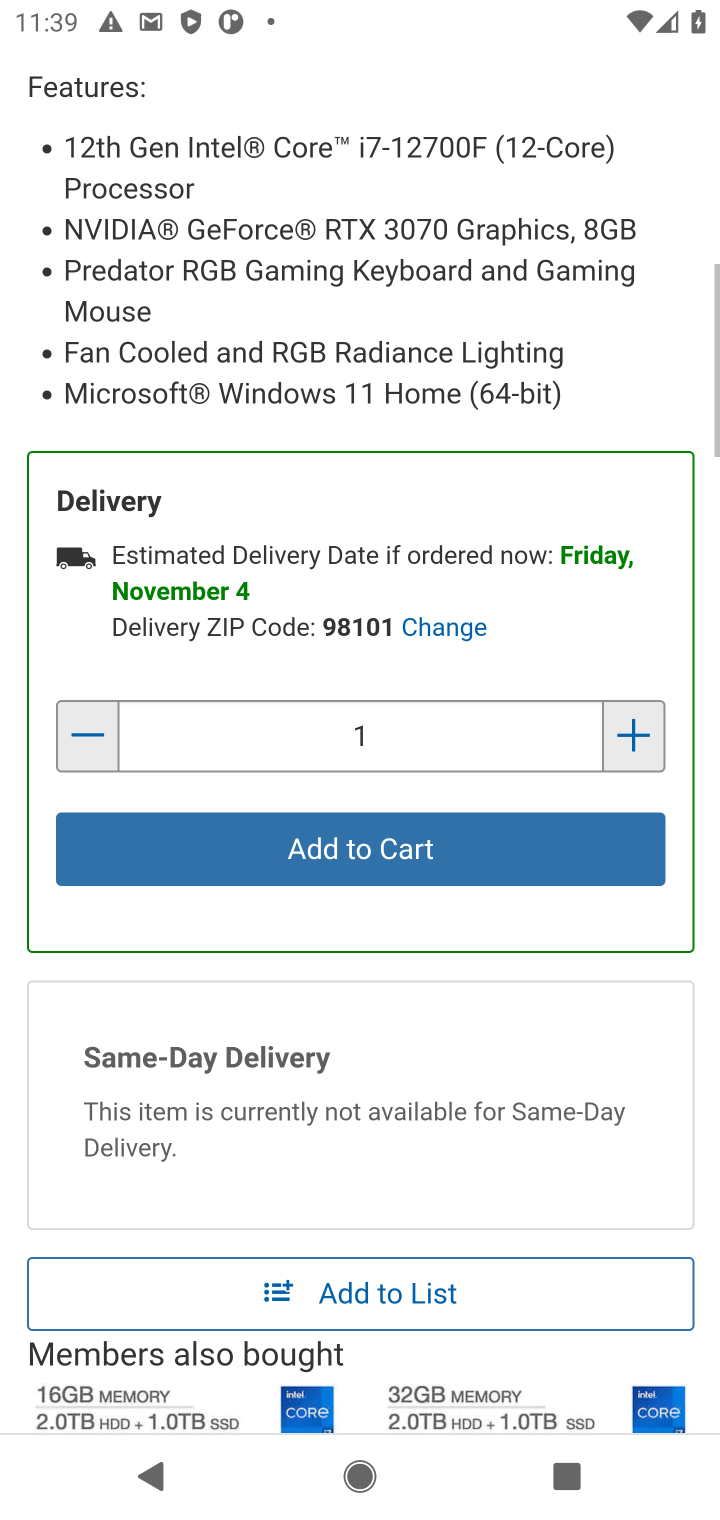
Step 23: drag from (597, 686) to (591, 450)
Your task to perform on an android device: Search for macbook on costco.com, select the first entry, add it to the cart, then select checkout. Image 24: 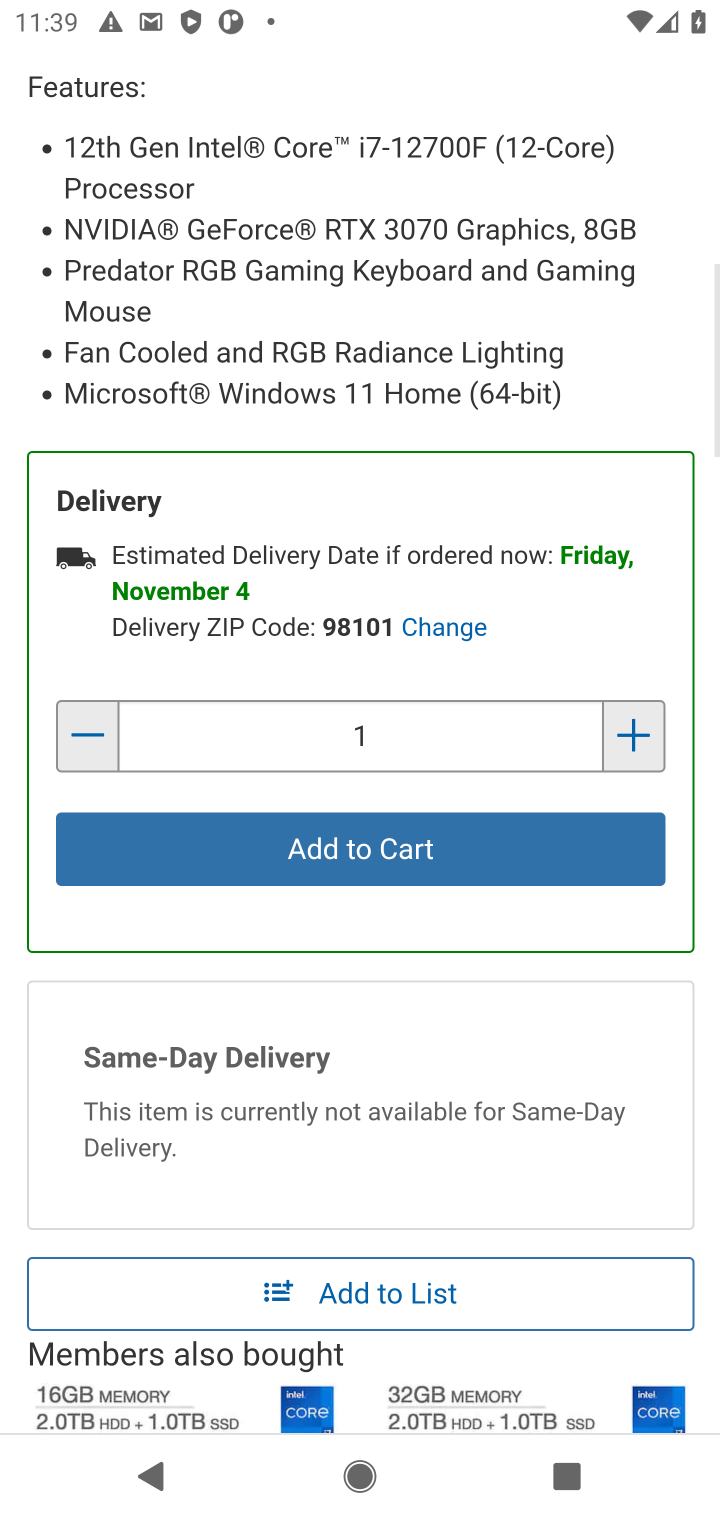
Step 24: drag from (606, 695) to (580, 491)
Your task to perform on an android device: Search for macbook on costco.com, select the first entry, add it to the cart, then select checkout. Image 25: 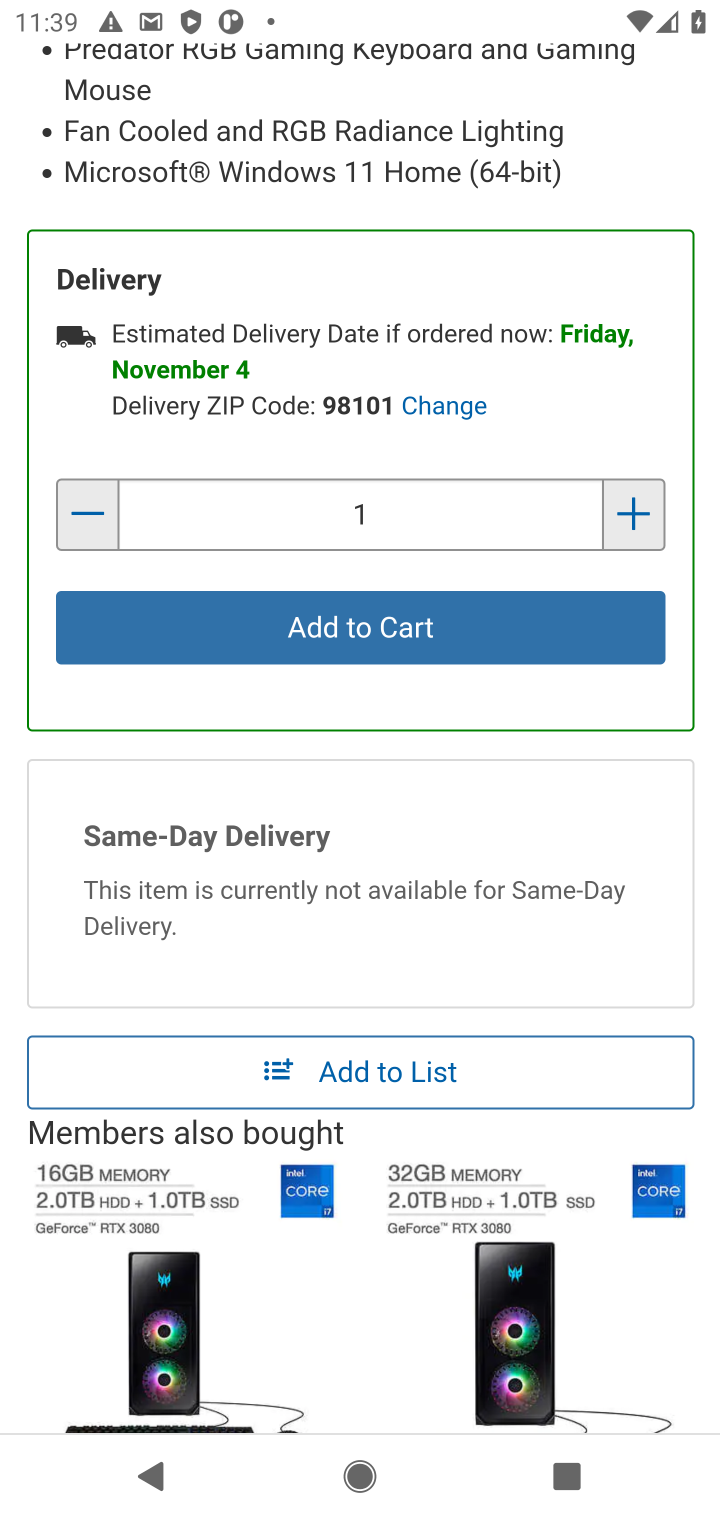
Step 25: drag from (545, 447) to (529, 371)
Your task to perform on an android device: Search for macbook on costco.com, select the first entry, add it to the cart, then select checkout. Image 26: 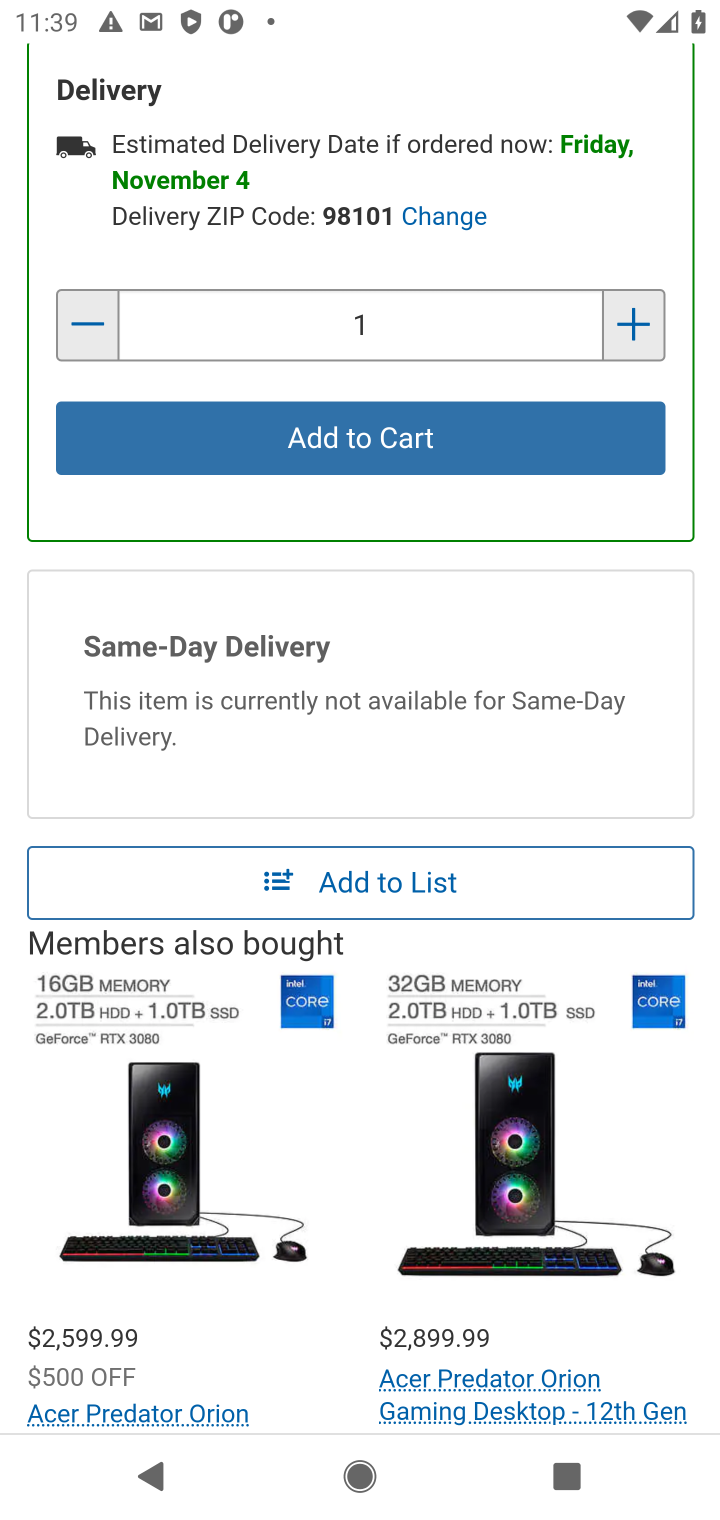
Step 26: click (439, 321)
Your task to perform on an android device: Search for macbook on costco.com, select the first entry, add it to the cart, then select checkout. Image 27: 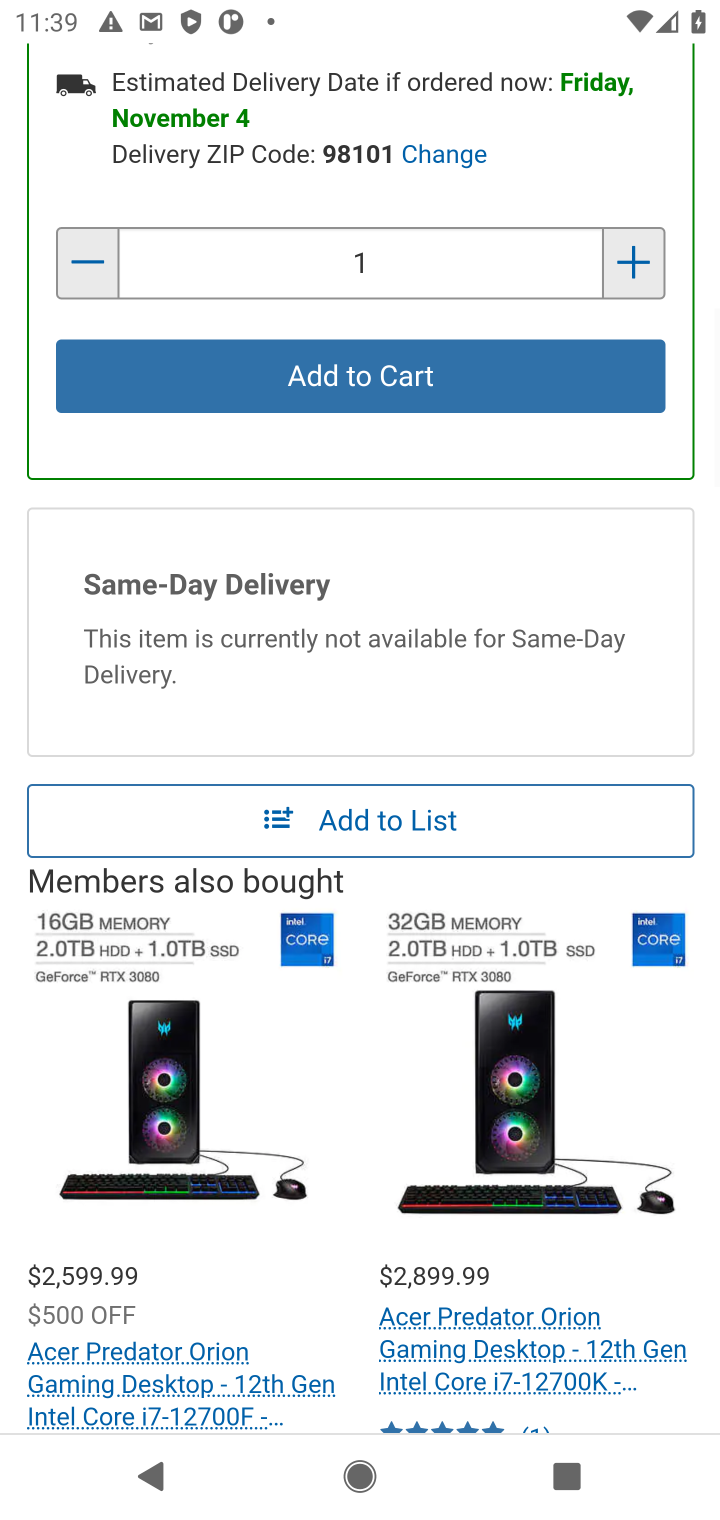
Step 27: click (544, 397)
Your task to perform on an android device: Search for macbook on costco.com, select the first entry, add it to the cart, then select checkout. Image 28: 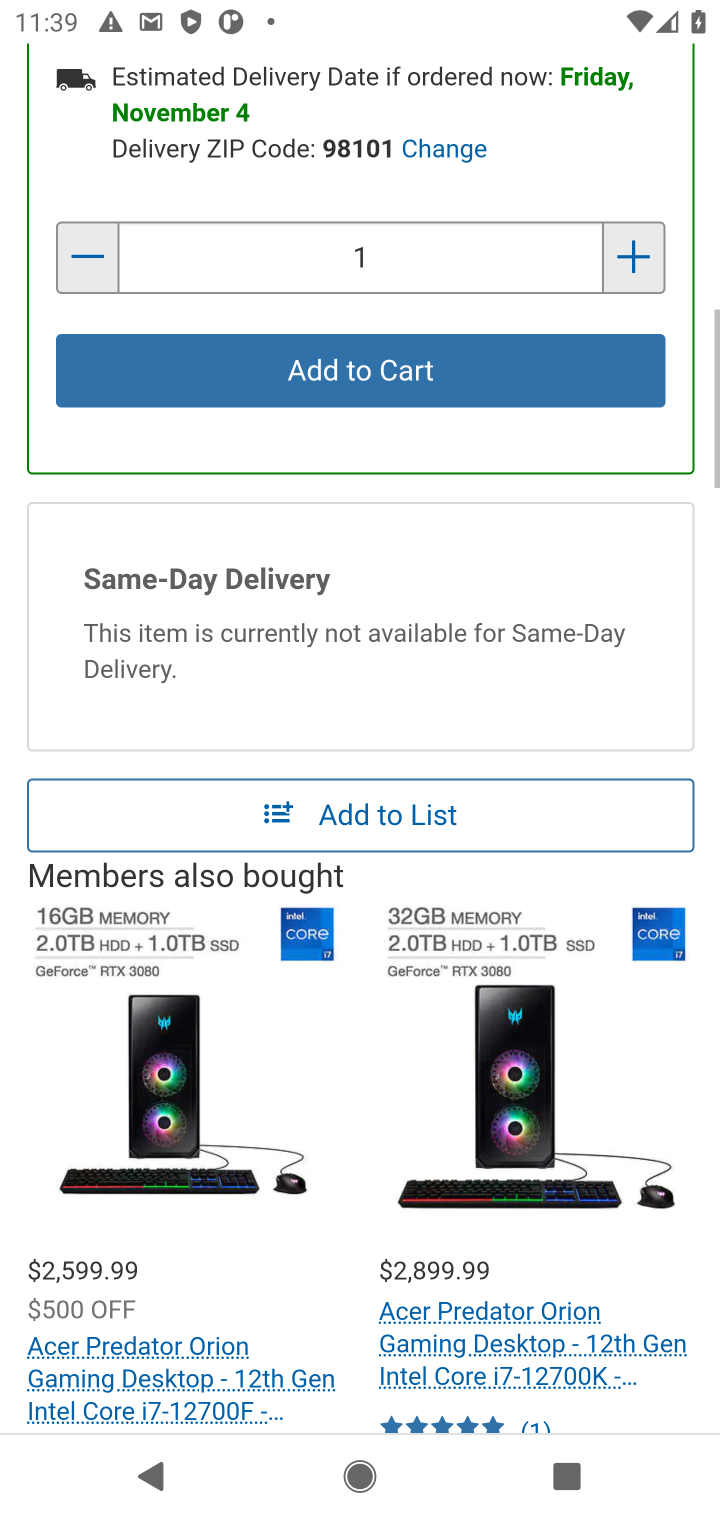
Step 28: drag from (575, 422) to (421, 488)
Your task to perform on an android device: Search for macbook on costco.com, select the first entry, add it to the cart, then select checkout. Image 29: 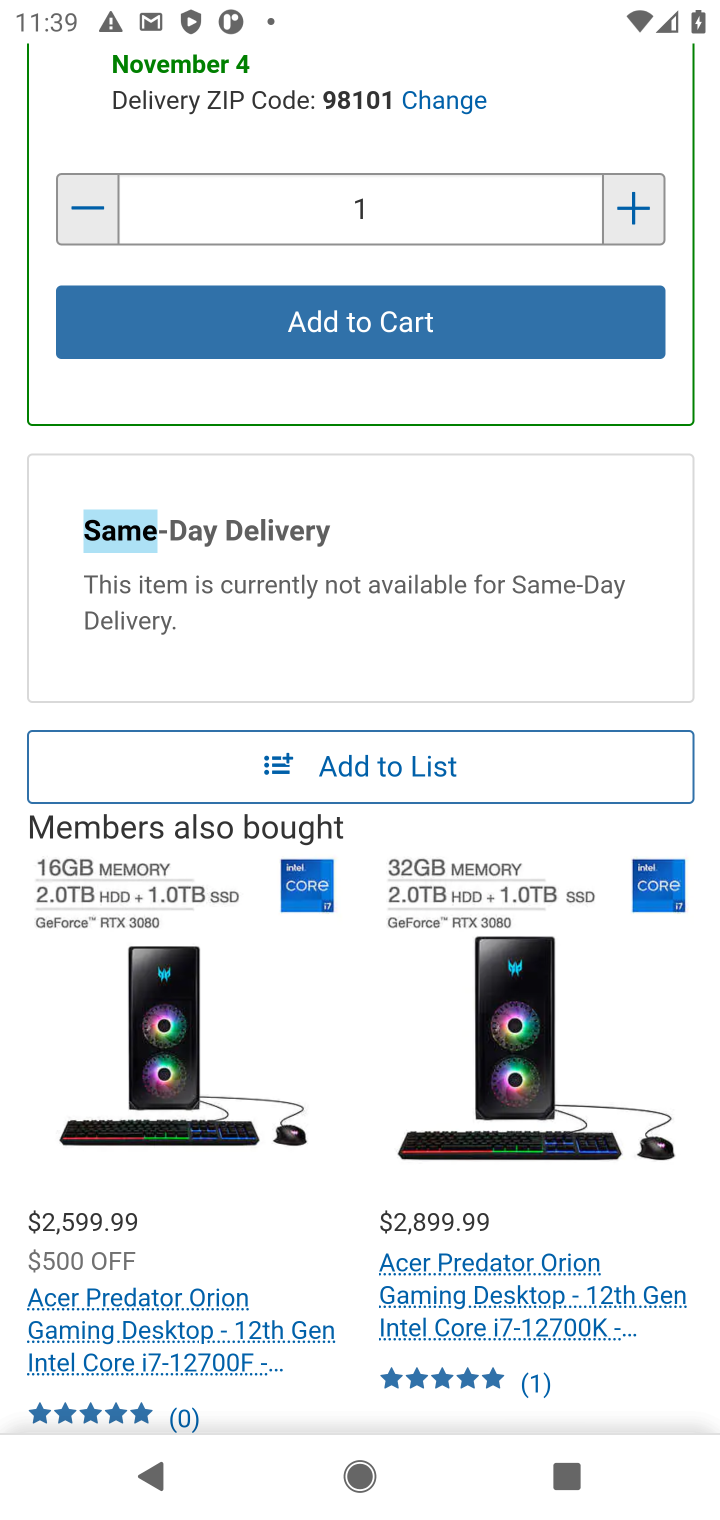
Step 29: drag from (495, 786) to (509, 605)
Your task to perform on an android device: Search for macbook on costco.com, select the first entry, add it to the cart, then select checkout. Image 30: 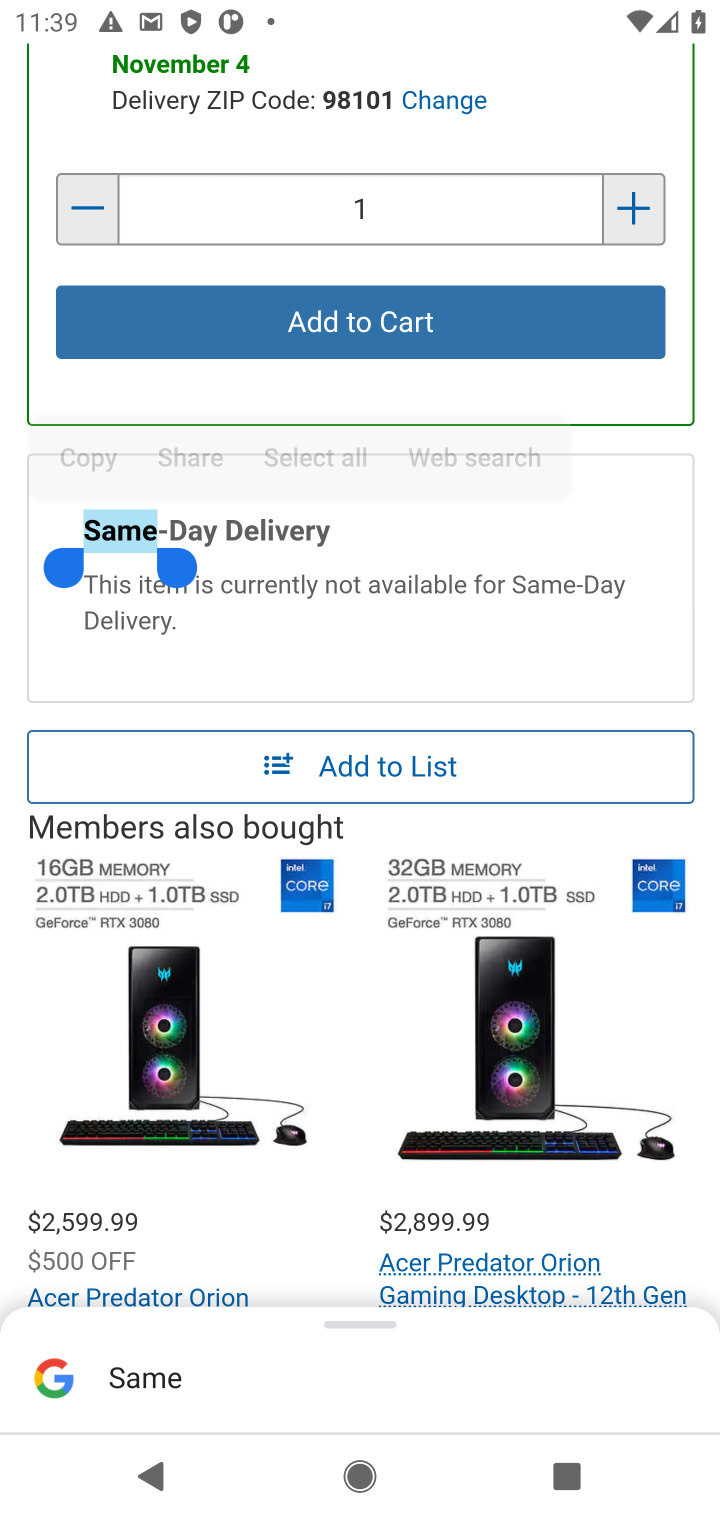
Step 30: click (521, 687)
Your task to perform on an android device: Search for macbook on costco.com, select the first entry, add it to the cart, then select checkout. Image 31: 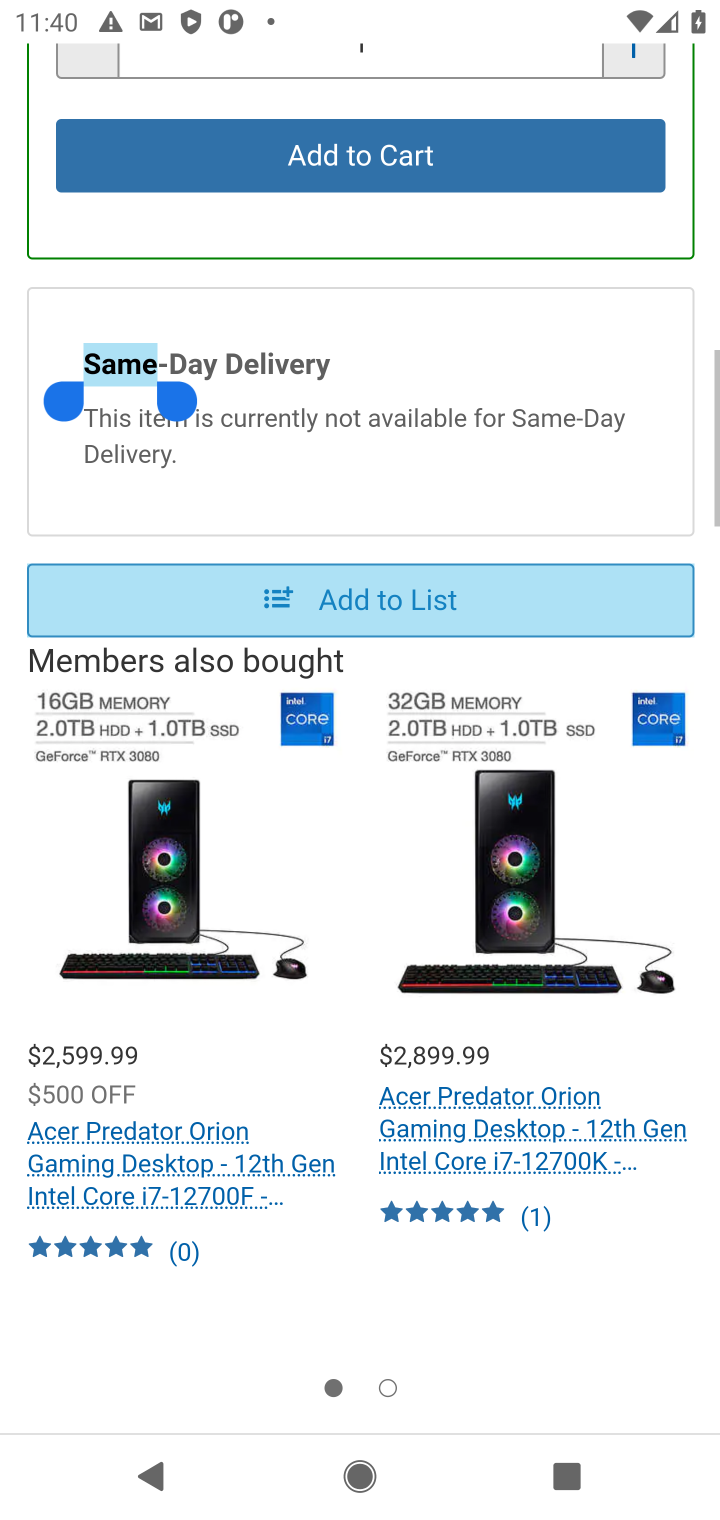
Step 31: drag from (502, 713) to (393, 692)
Your task to perform on an android device: Search for macbook on costco.com, select the first entry, add it to the cart, then select checkout. Image 32: 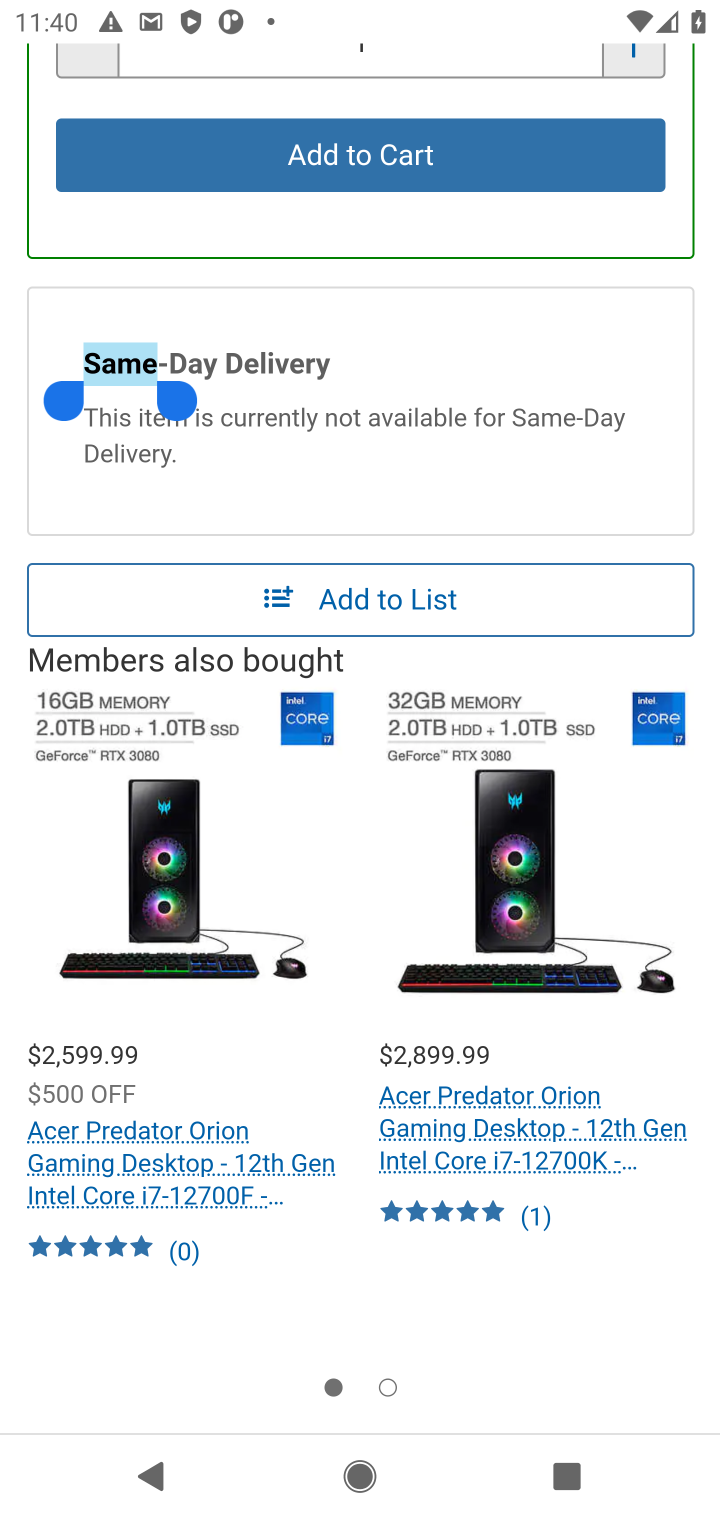
Step 32: drag from (444, 885) to (521, 365)
Your task to perform on an android device: Search for macbook on costco.com, select the first entry, add it to the cart, then select checkout. Image 33: 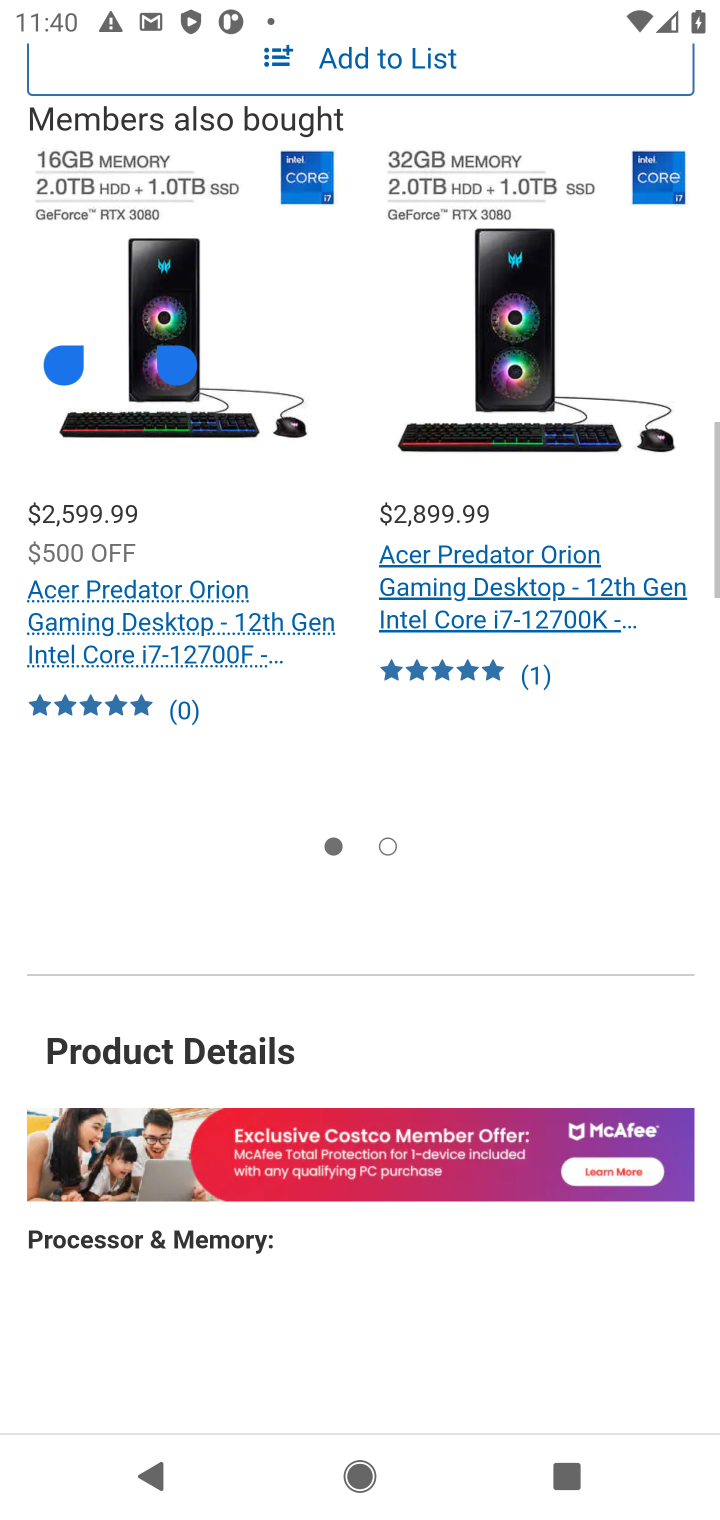
Step 33: drag from (500, 524) to (505, 330)
Your task to perform on an android device: Search for macbook on costco.com, select the first entry, add it to the cart, then select checkout. Image 34: 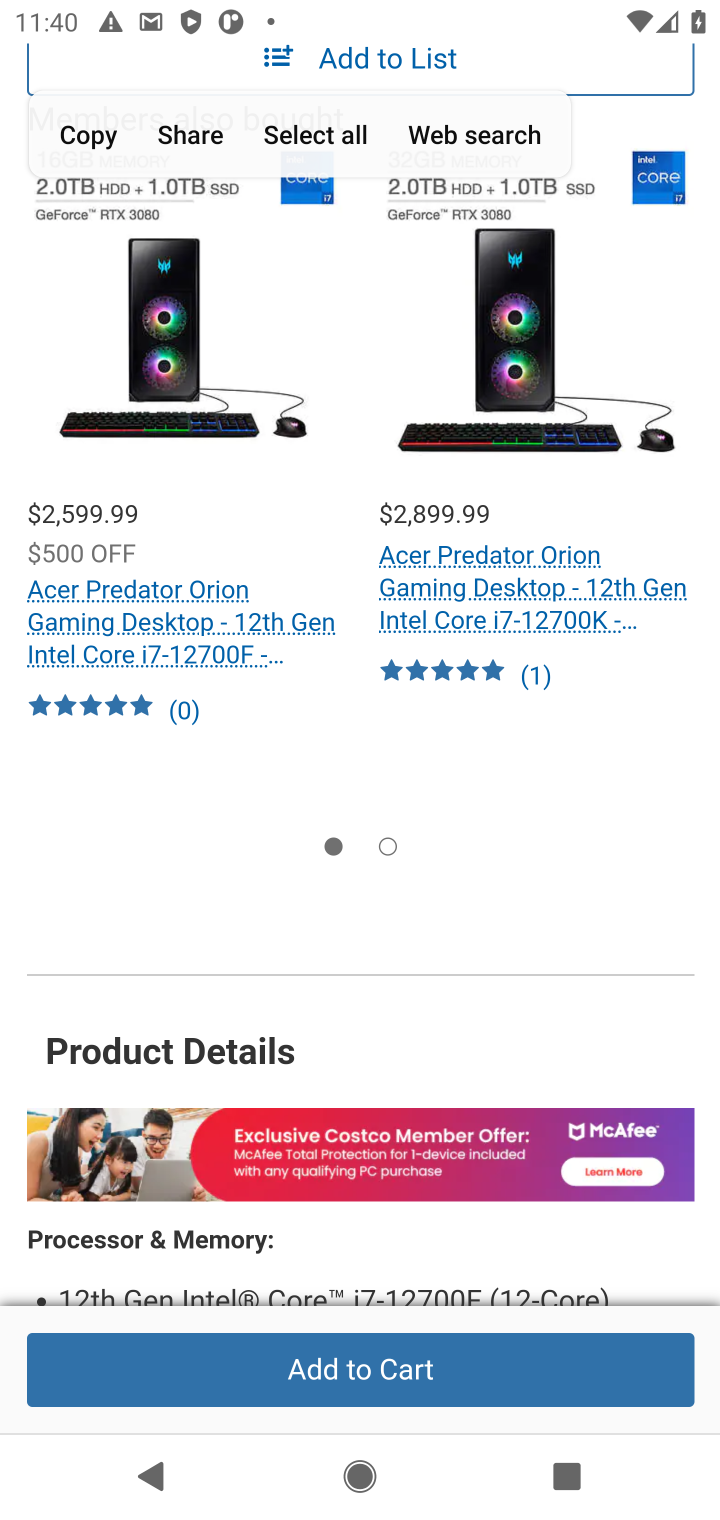
Step 34: drag from (476, 456) to (483, 328)
Your task to perform on an android device: Search for macbook on costco.com, select the first entry, add it to the cart, then select checkout. Image 35: 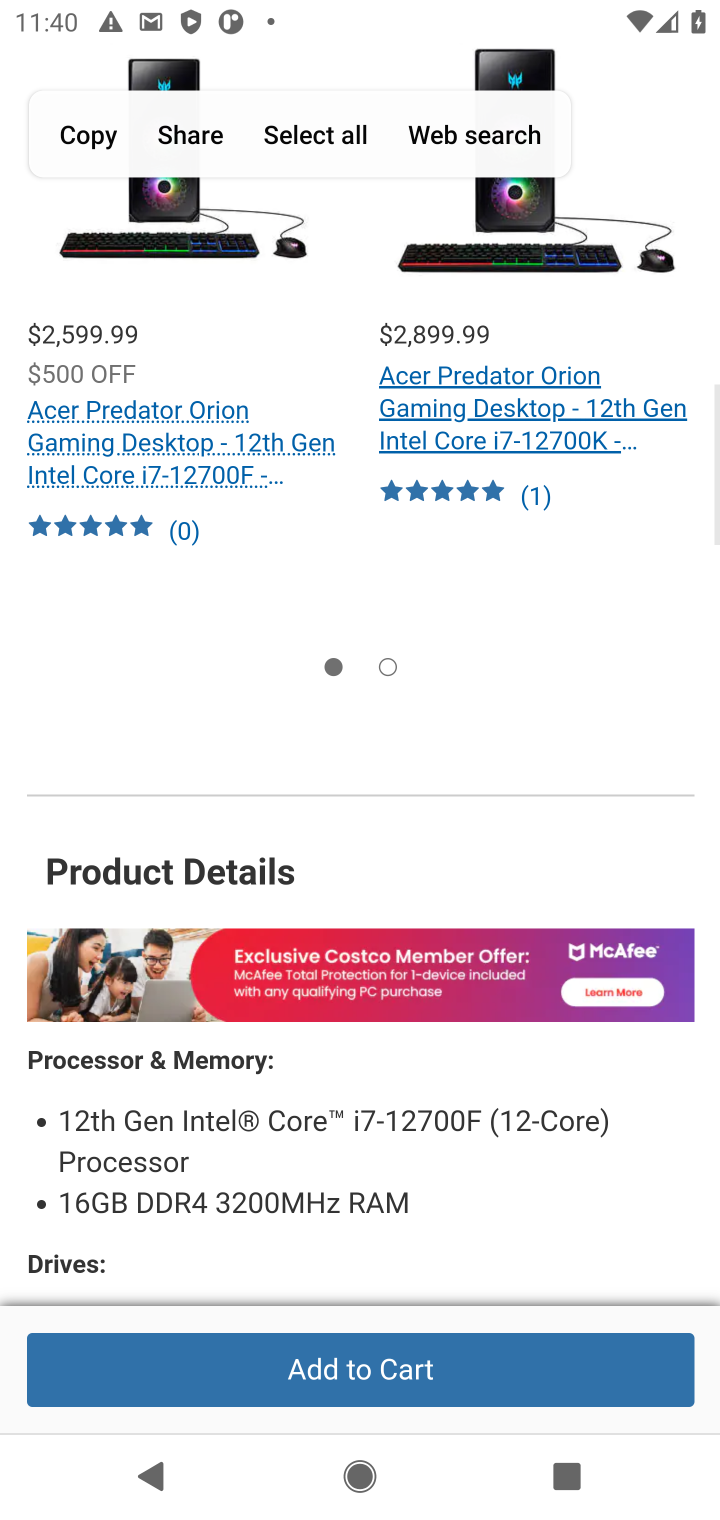
Step 35: drag from (524, 829) to (599, 376)
Your task to perform on an android device: Search for macbook on costco.com, select the first entry, add it to the cart, then select checkout. Image 36: 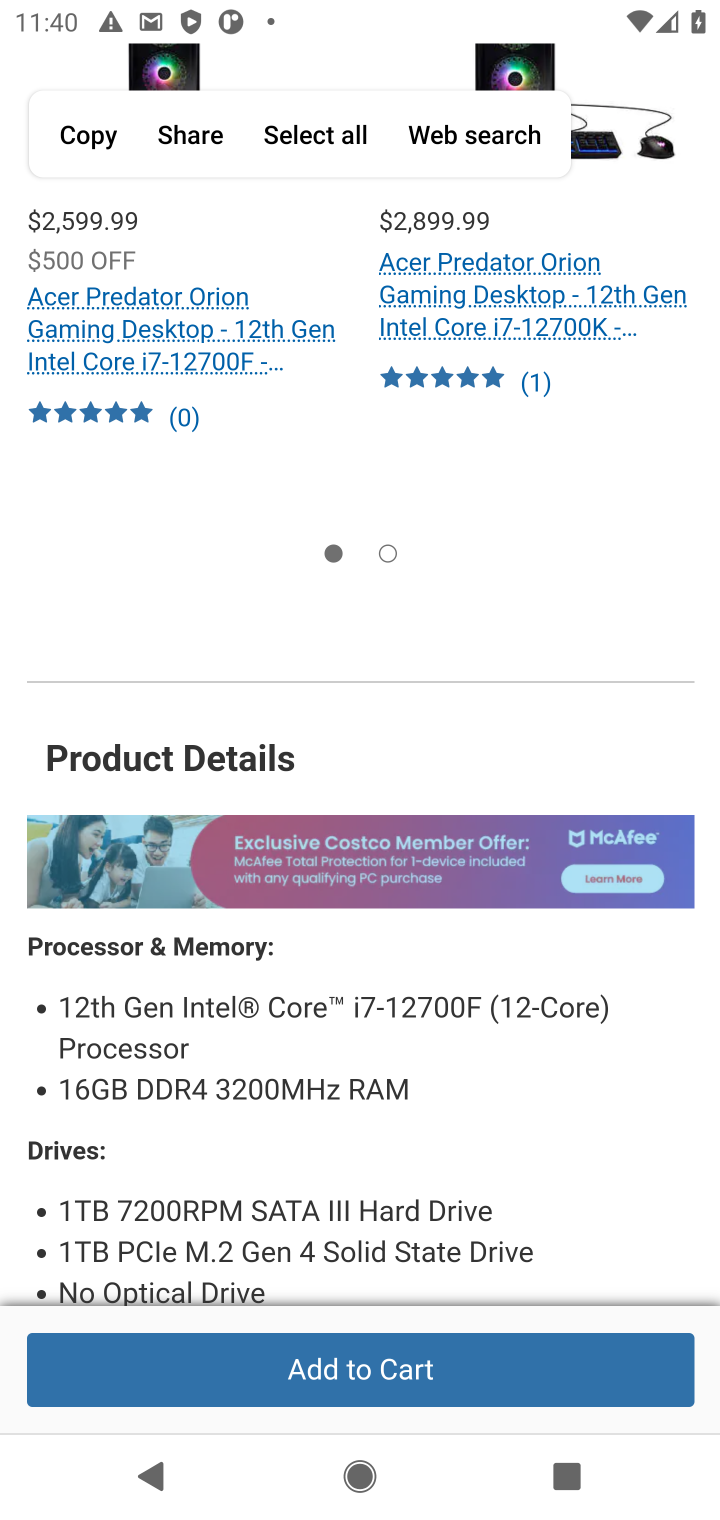
Step 36: drag from (545, 458) to (429, 380)
Your task to perform on an android device: Search for macbook on costco.com, select the first entry, add it to the cart, then select checkout. Image 37: 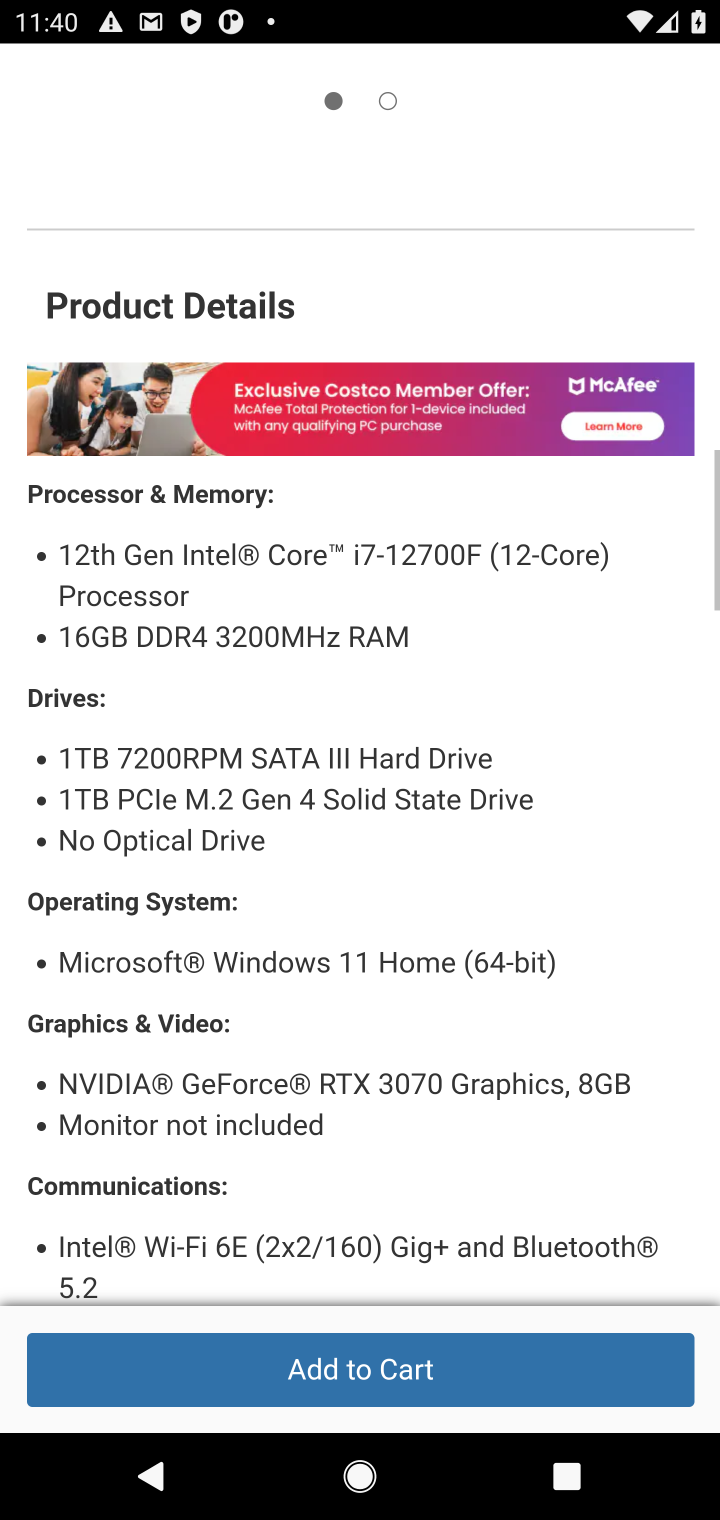
Step 37: drag from (427, 1007) to (505, 519)
Your task to perform on an android device: Search for macbook on costco.com, select the first entry, add it to the cart, then select checkout. Image 38: 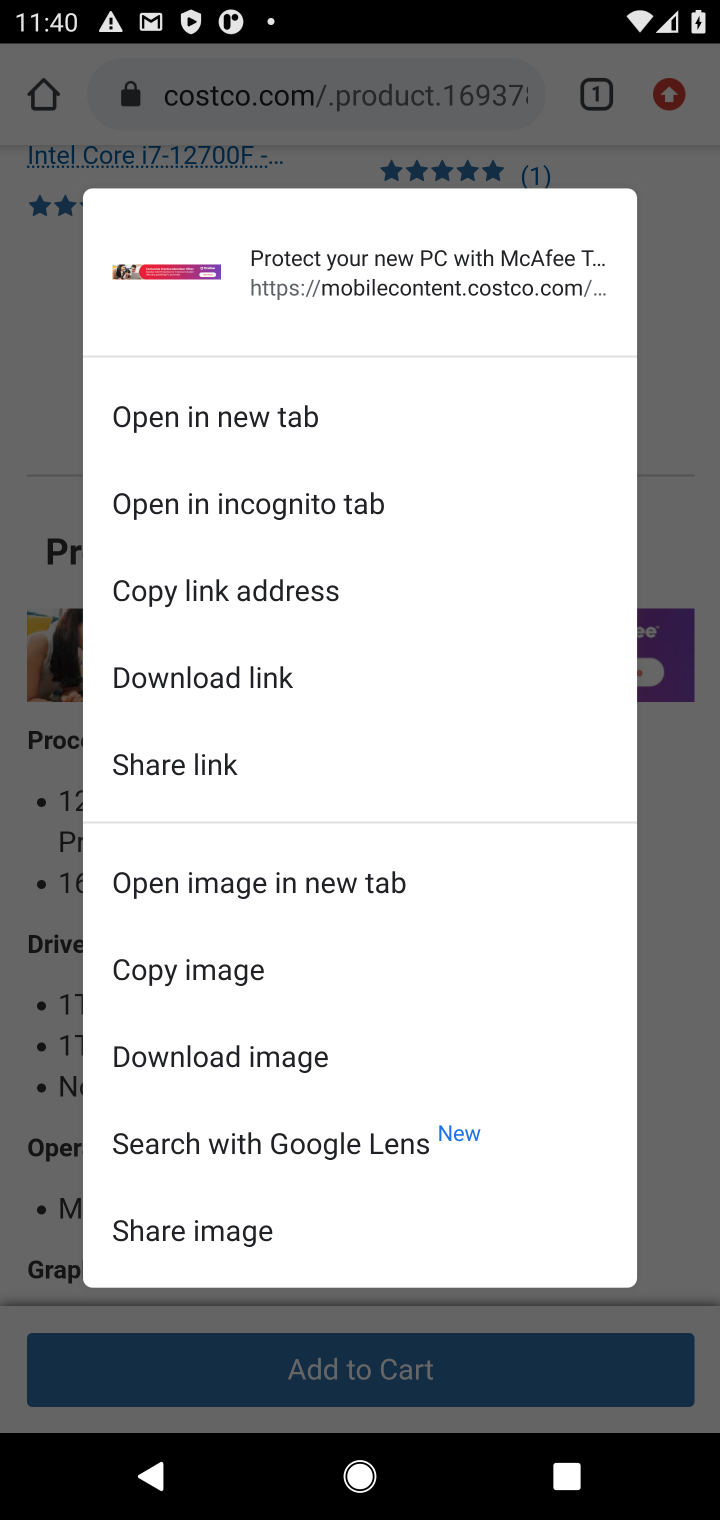
Step 38: click (691, 427)
Your task to perform on an android device: Search for macbook on costco.com, select the first entry, add it to the cart, then select checkout. Image 39: 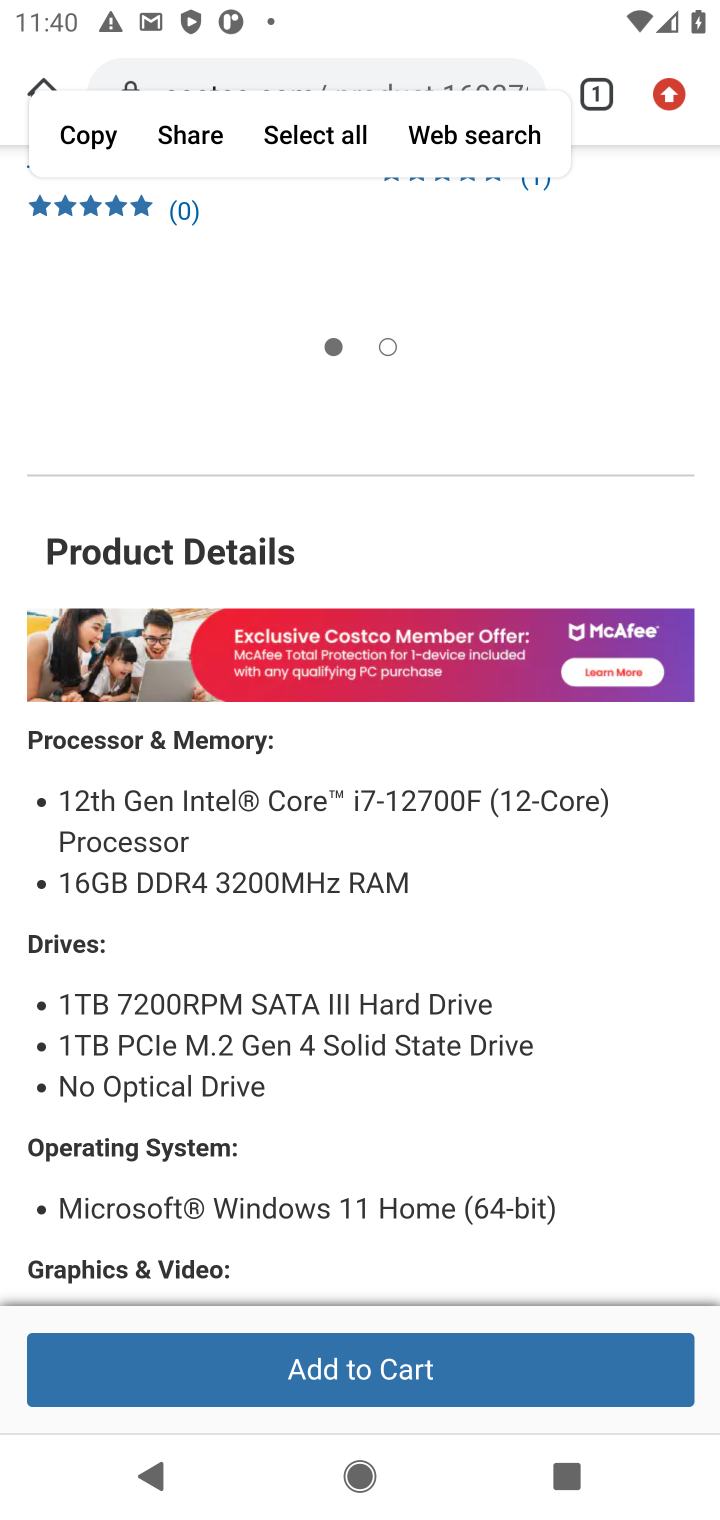
Step 39: task complete